Your task to perform on an android device: View the shopping cart on amazon. Search for "rayovac triple a" on amazon, select the first entry, and add it to the cart. Image 0: 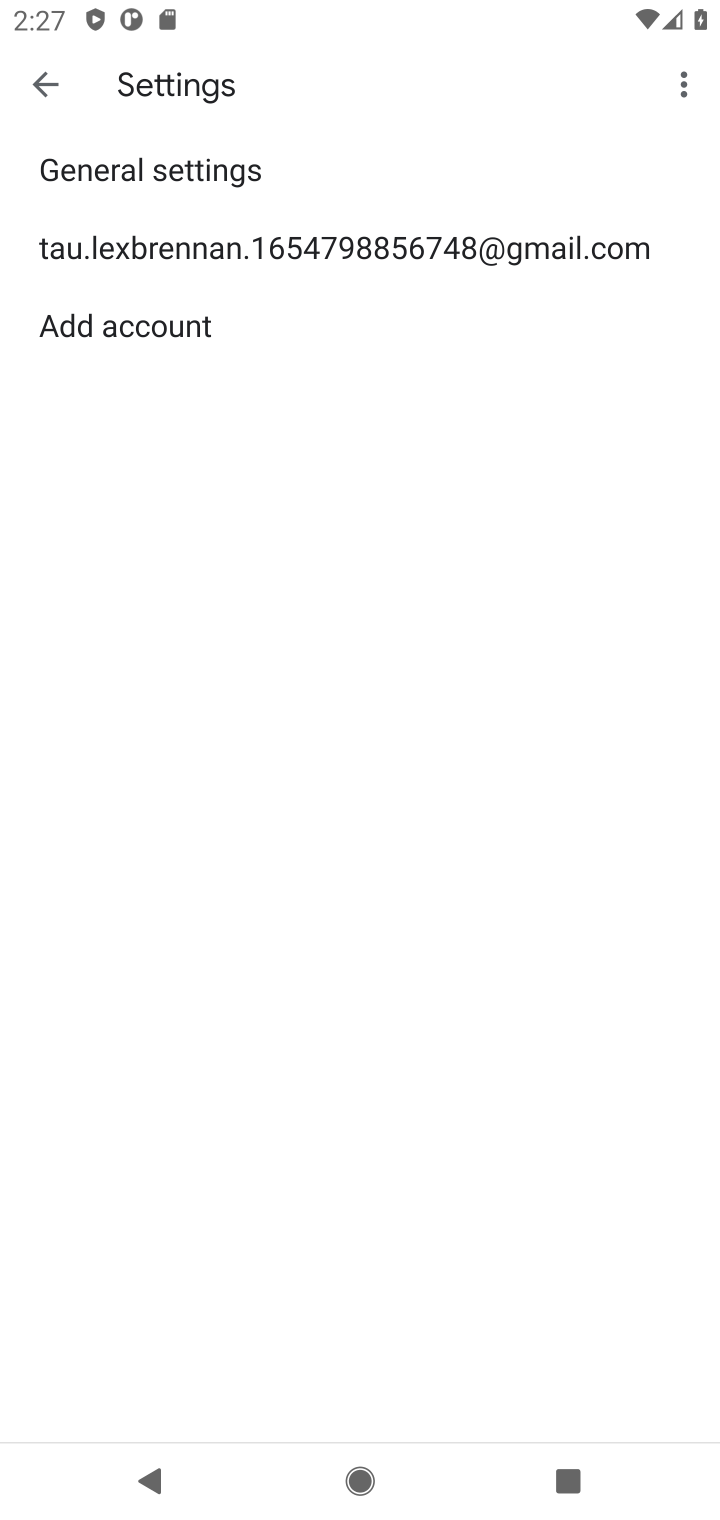
Step 0: press home button
Your task to perform on an android device: View the shopping cart on amazon. Search for "rayovac triple a" on amazon, select the first entry, and add it to the cart. Image 1: 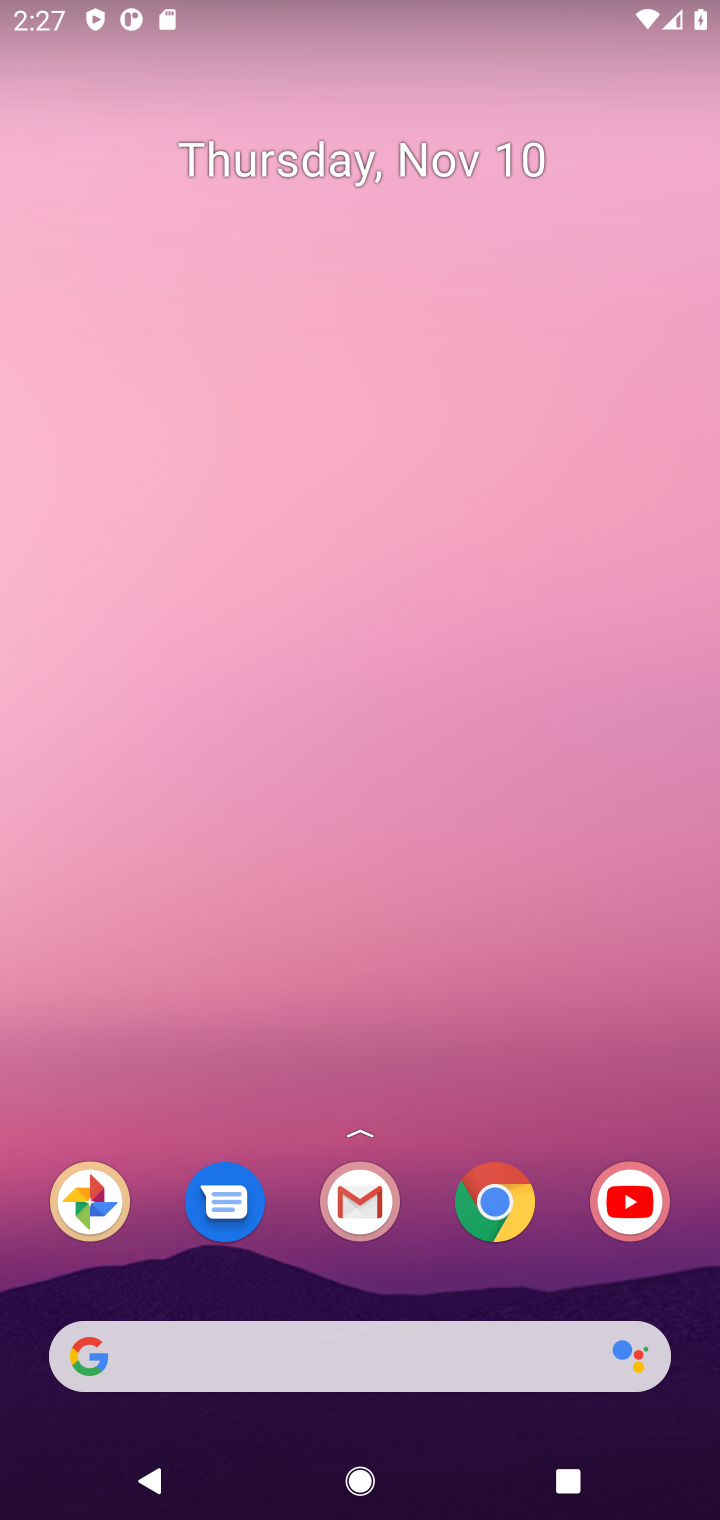
Step 1: click (483, 1186)
Your task to perform on an android device: View the shopping cart on amazon. Search for "rayovac triple a" on amazon, select the first entry, and add it to the cart. Image 2: 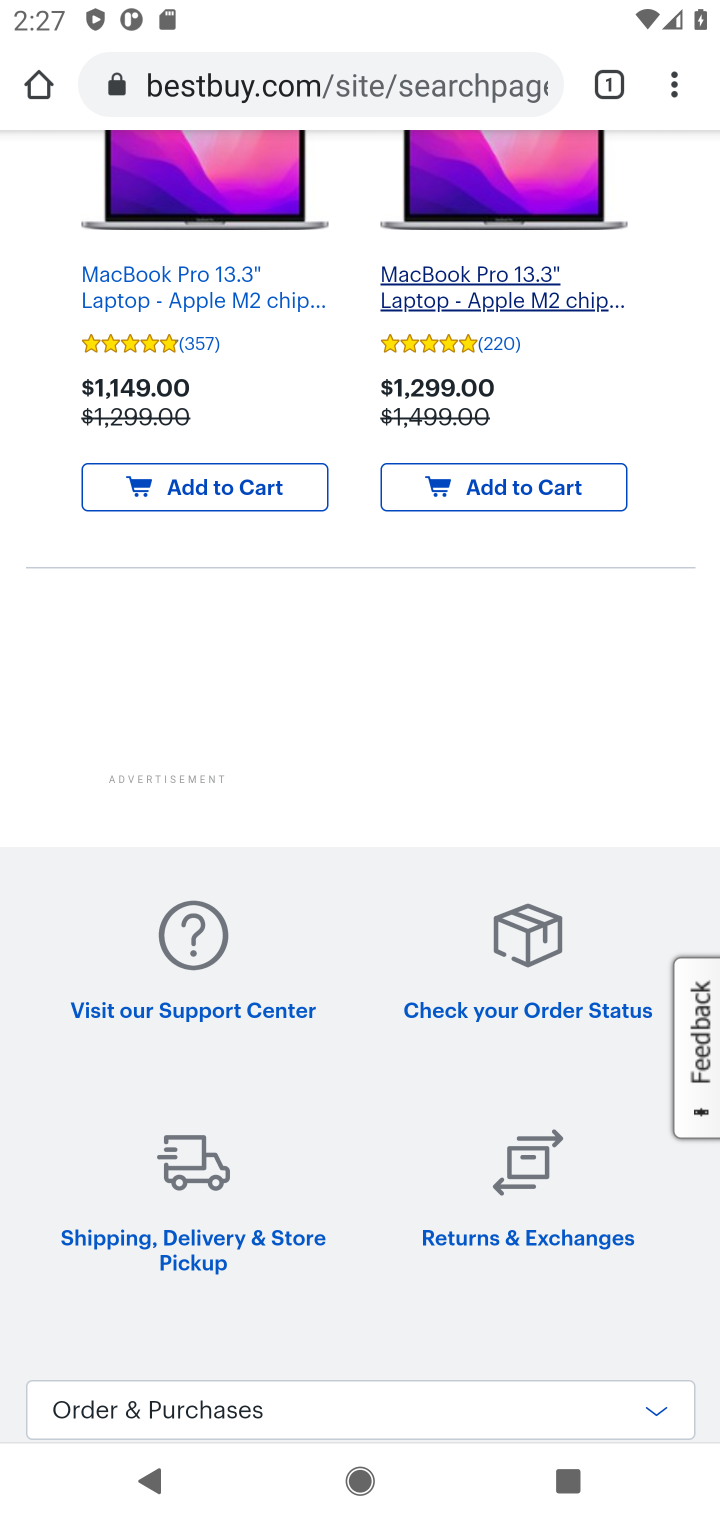
Step 2: click (297, 73)
Your task to perform on an android device: View the shopping cart on amazon. Search for "rayovac triple a" on amazon, select the first entry, and add it to the cart. Image 3: 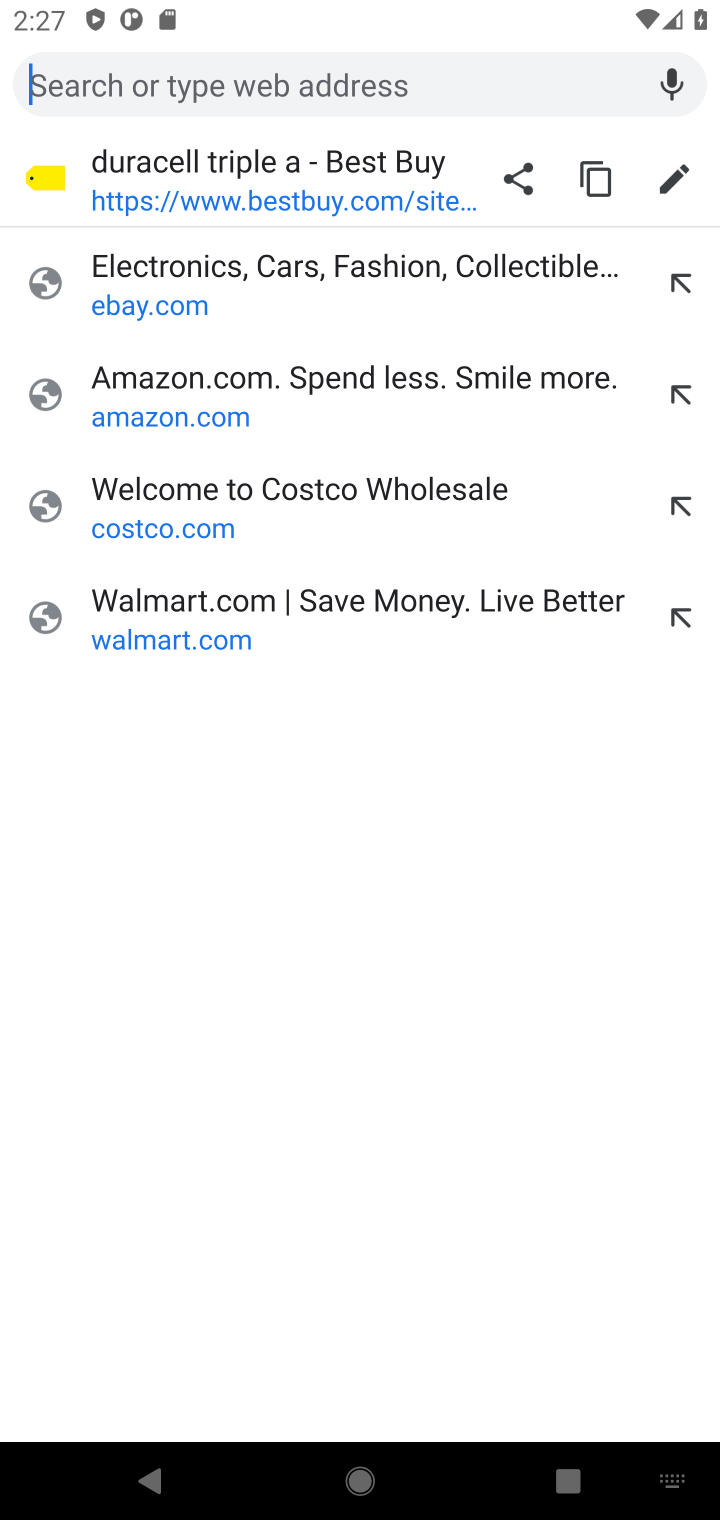
Step 3: click (291, 370)
Your task to perform on an android device: View the shopping cart on amazon. Search for "rayovac triple a" on amazon, select the first entry, and add it to the cart. Image 4: 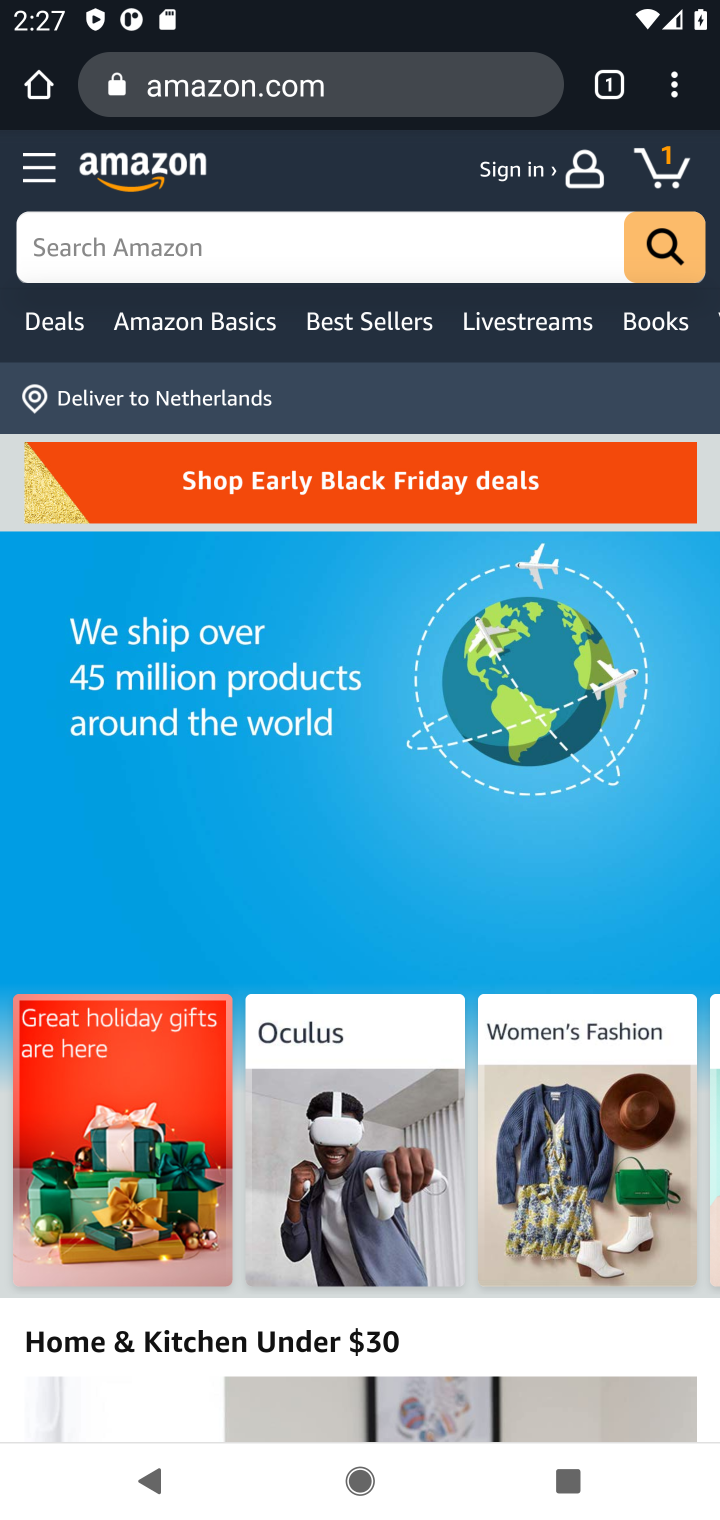
Step 4: click (352, 229)
Your task to perform on an android device: View the shopping cart on amazon. Search for "rayovac triple a" on amazon, select the first entry, and add it to the cart. Image 5: 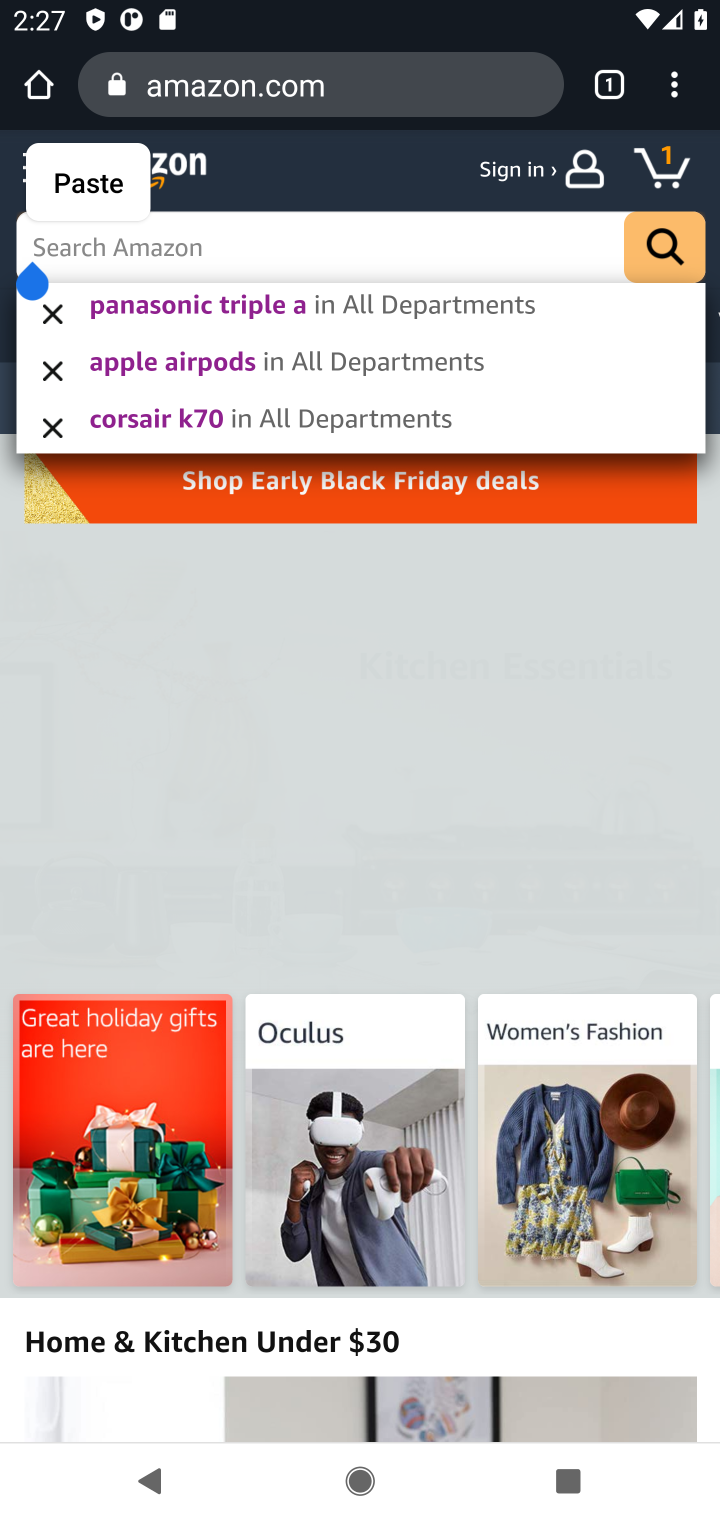
Step 5: press enter
Your task to perform on an android device: View the shopping cart on amazon. Search for "rayovac triple a" on amazon, select the first entry, and add it to the cart. Image 6: 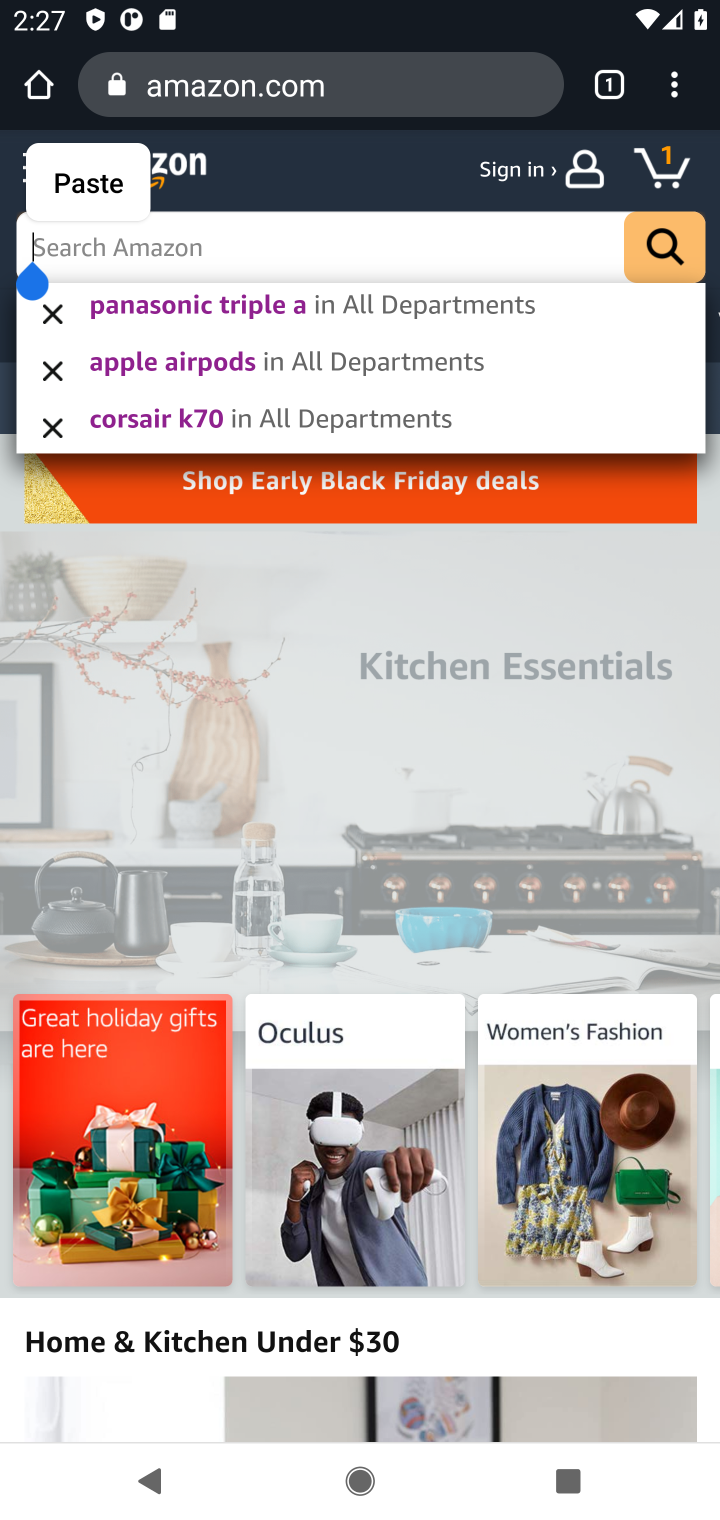
Step 6: type "rayovac triple a"
Your task to perform on an android device: View the shopping cart on amazon. Search for "rayovac triple a" on amazon, select the first entry, and add it to the cart. Image 7: 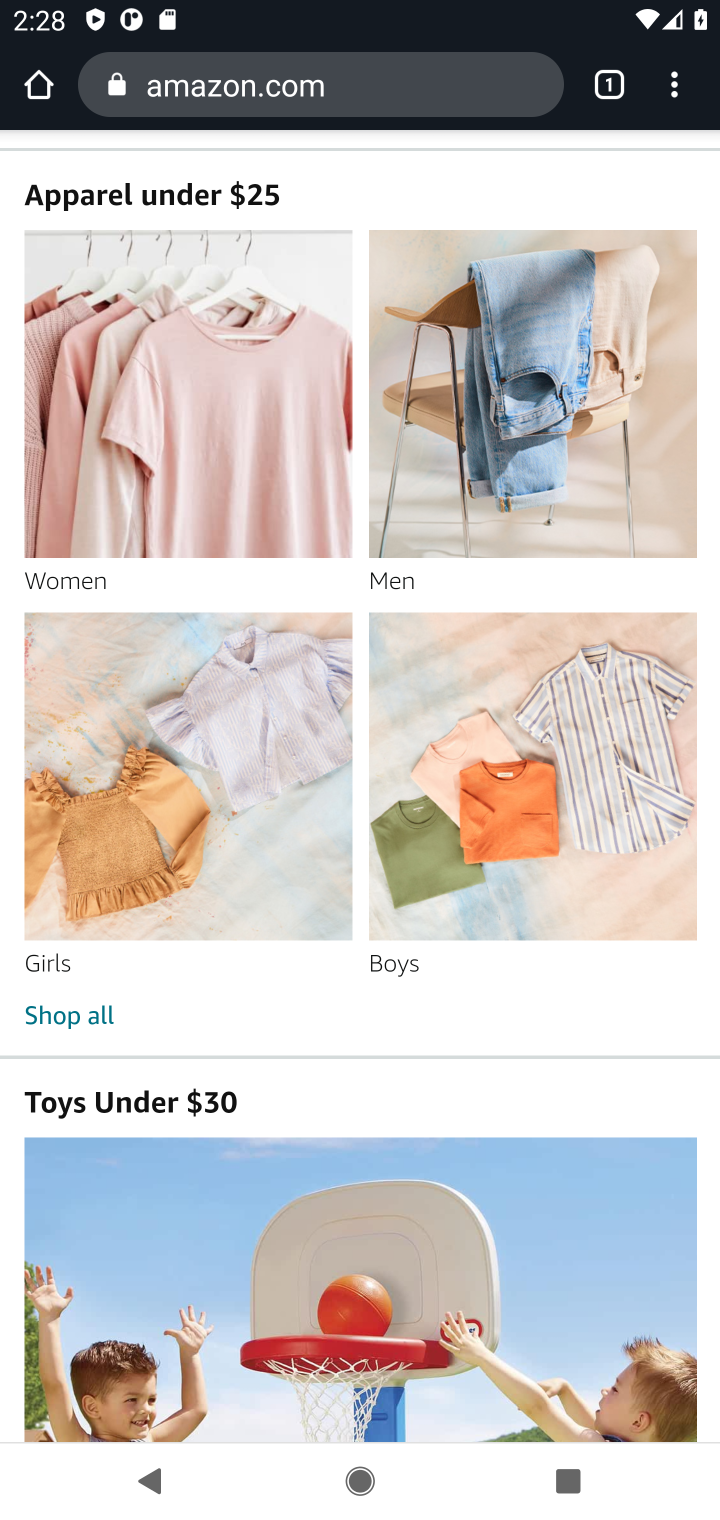
Step 7: press home button
Your task to perform on an android device: View the shopping cart on amazon. Search for "rayovac triple a" on amazon, select the first entry, and add it to the cart. Image 8: 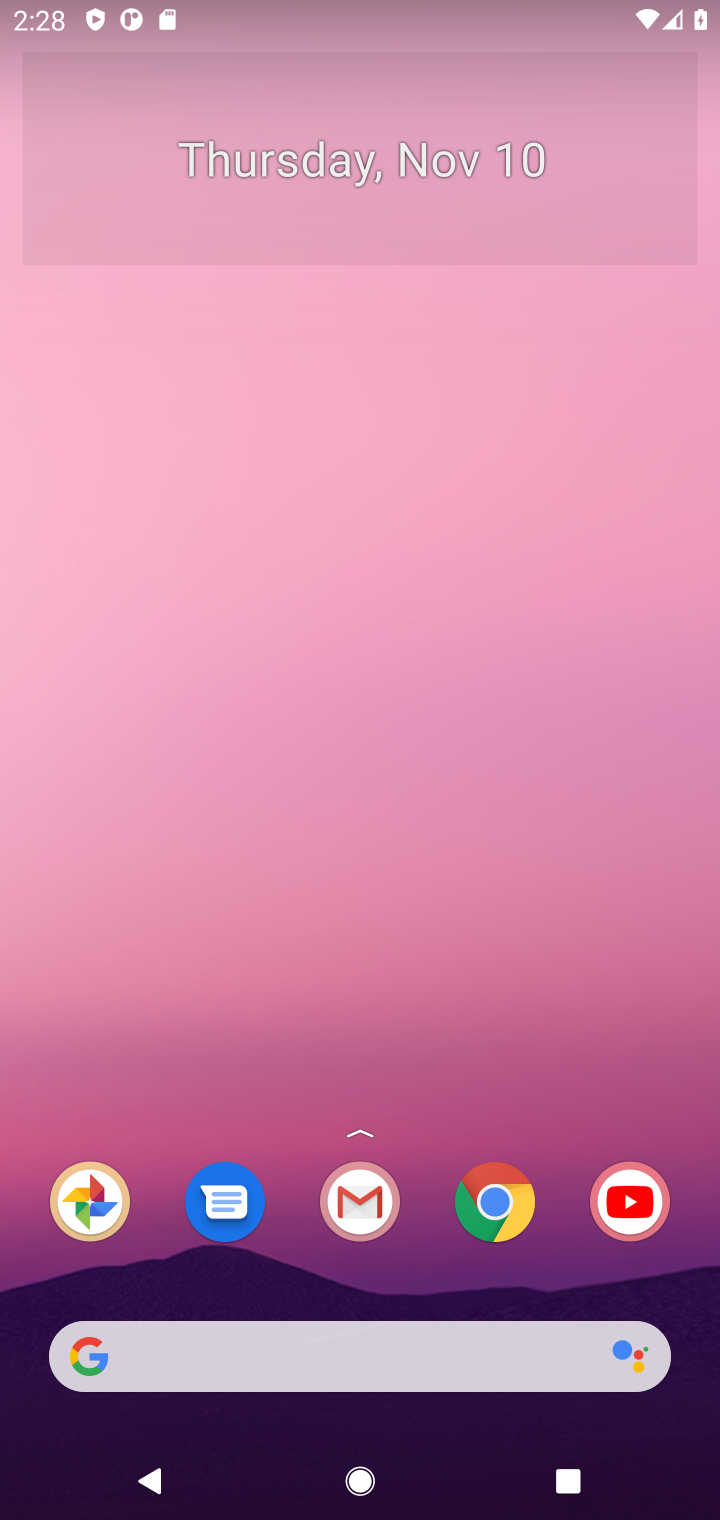
Step 8: click (496, 1220)
Your task to perform on an android device: View the shopping cart on amazon. Search for "rayovac triple a" on amazon, select the first entry, and add it to the cart. Image 9: 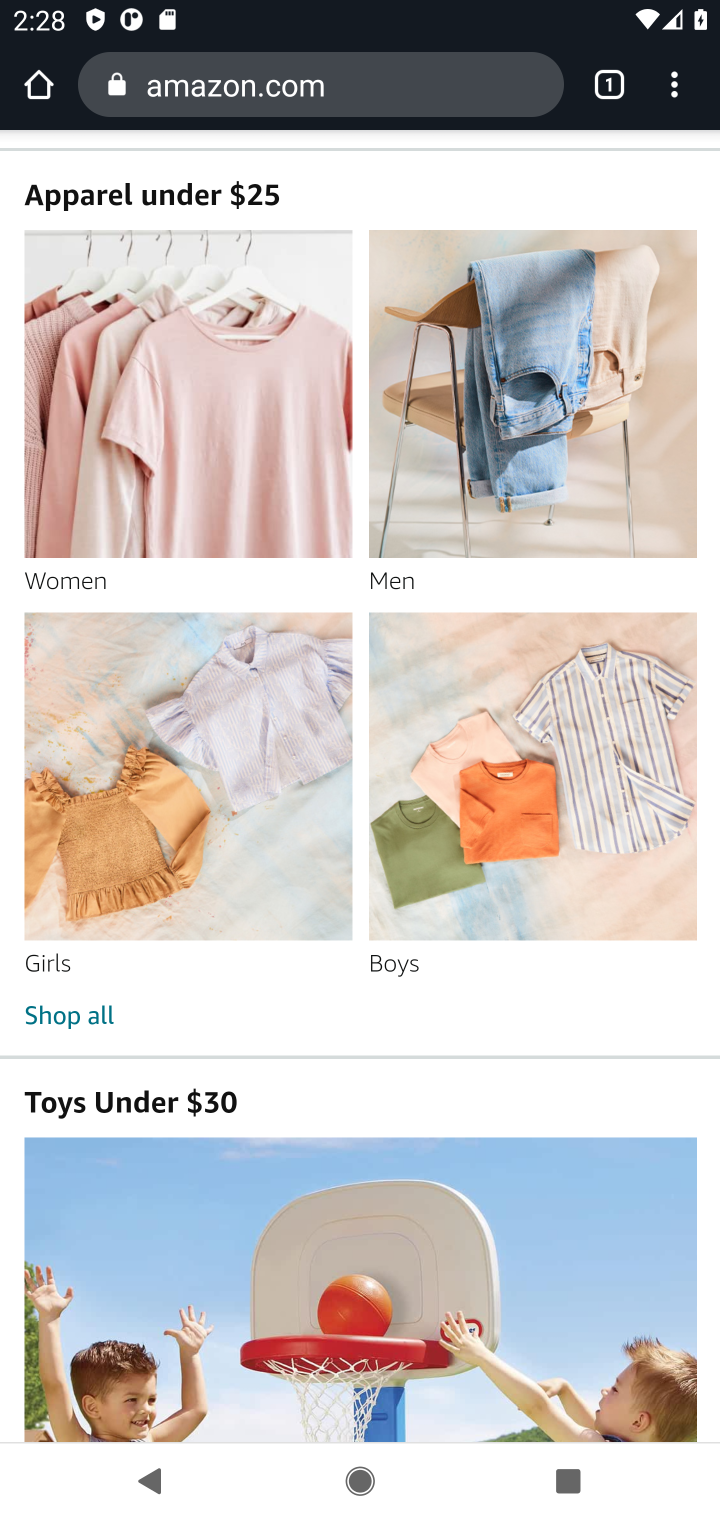
Step 9: click (342, 80)
Your task to perform on an android device: View the shopping cart on amazon. Search for "rayovac triple a" on amazon, select the first entry, and add it to the cart. Image 10: 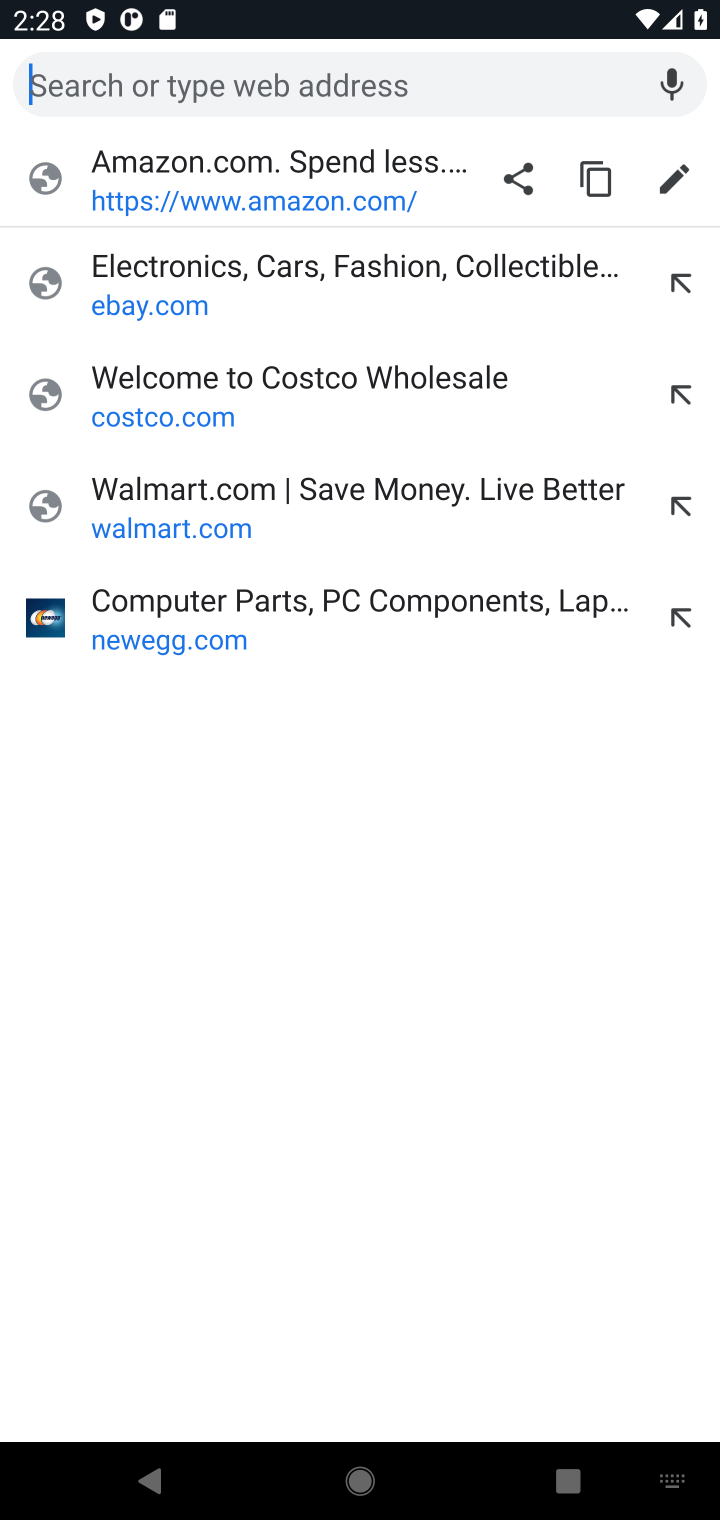
Step 10: press enter
Your task to perform on an android device: View the shopping cart on amazon. Search for "rayovac triple a" on amazon, select the first entry, and add it to the cart. Image 11: 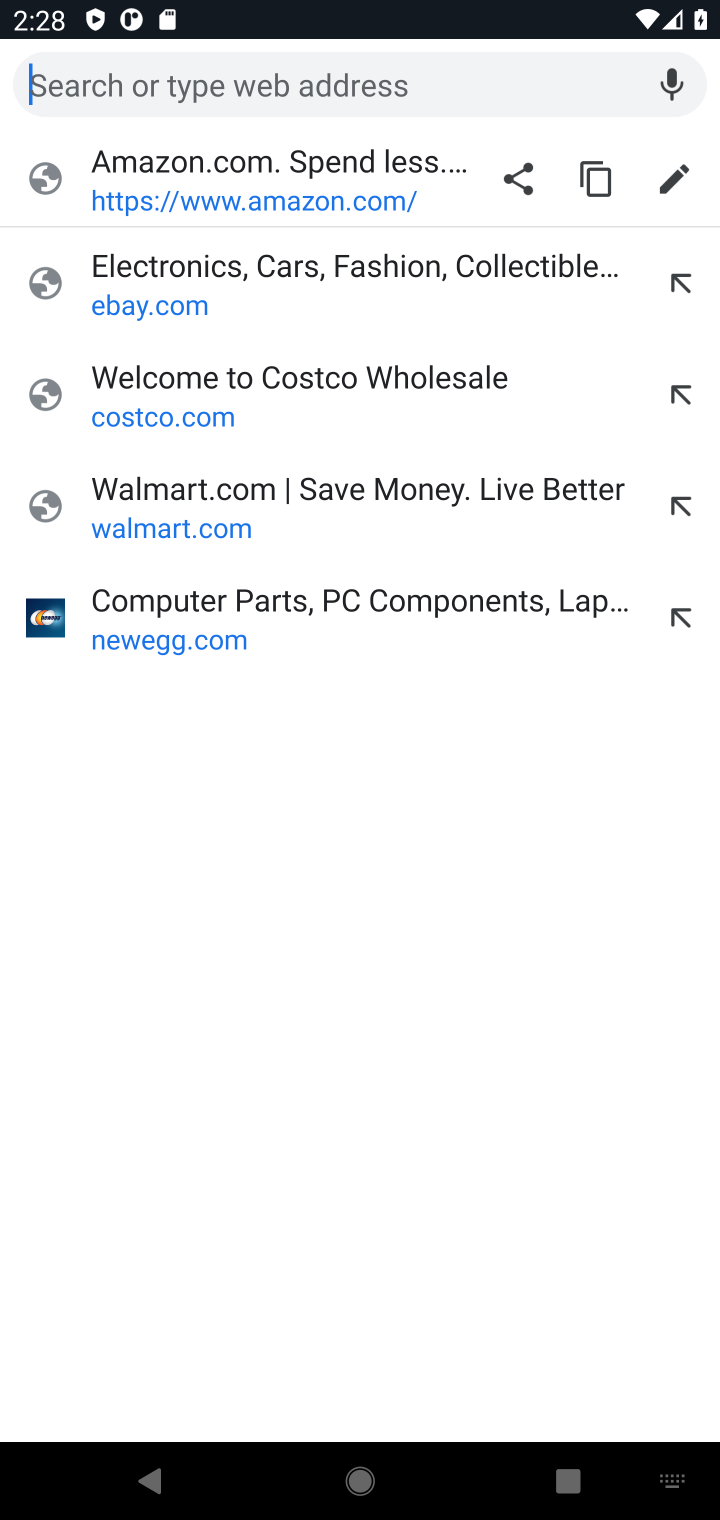
Step 11: type "rayovac triple a"
Your task to perform on an android device: View the shopping cart on amazon. Search for "rayovac triple a" on amazon, select the first entry, and add it to the cart. Image 12: 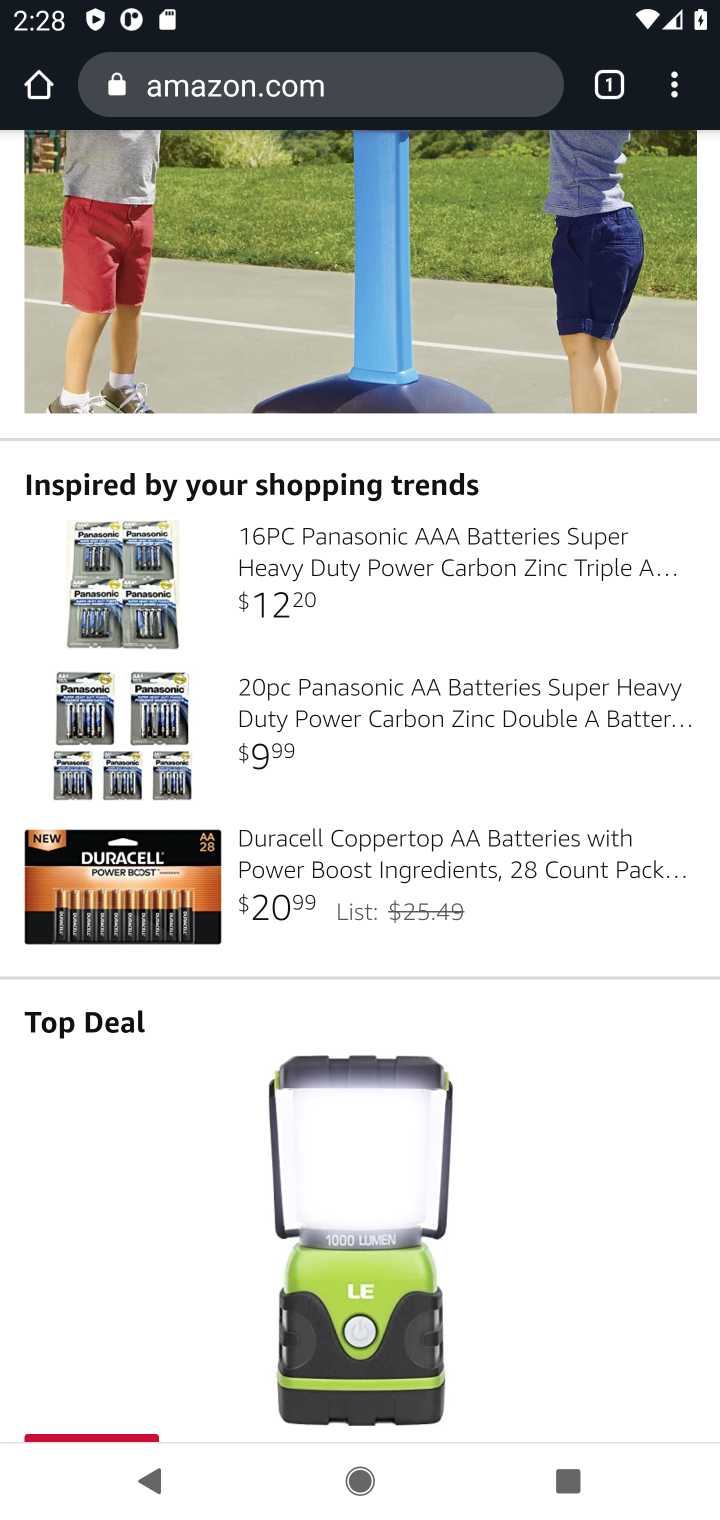
Step 12: drag from (545, 321) to (493, 1015)
Your task to perform on an android device: View the shopping cart on amazon. Search for "rayovac triple a" on amazon, select the first entry, and add it to the cart. Image 13: 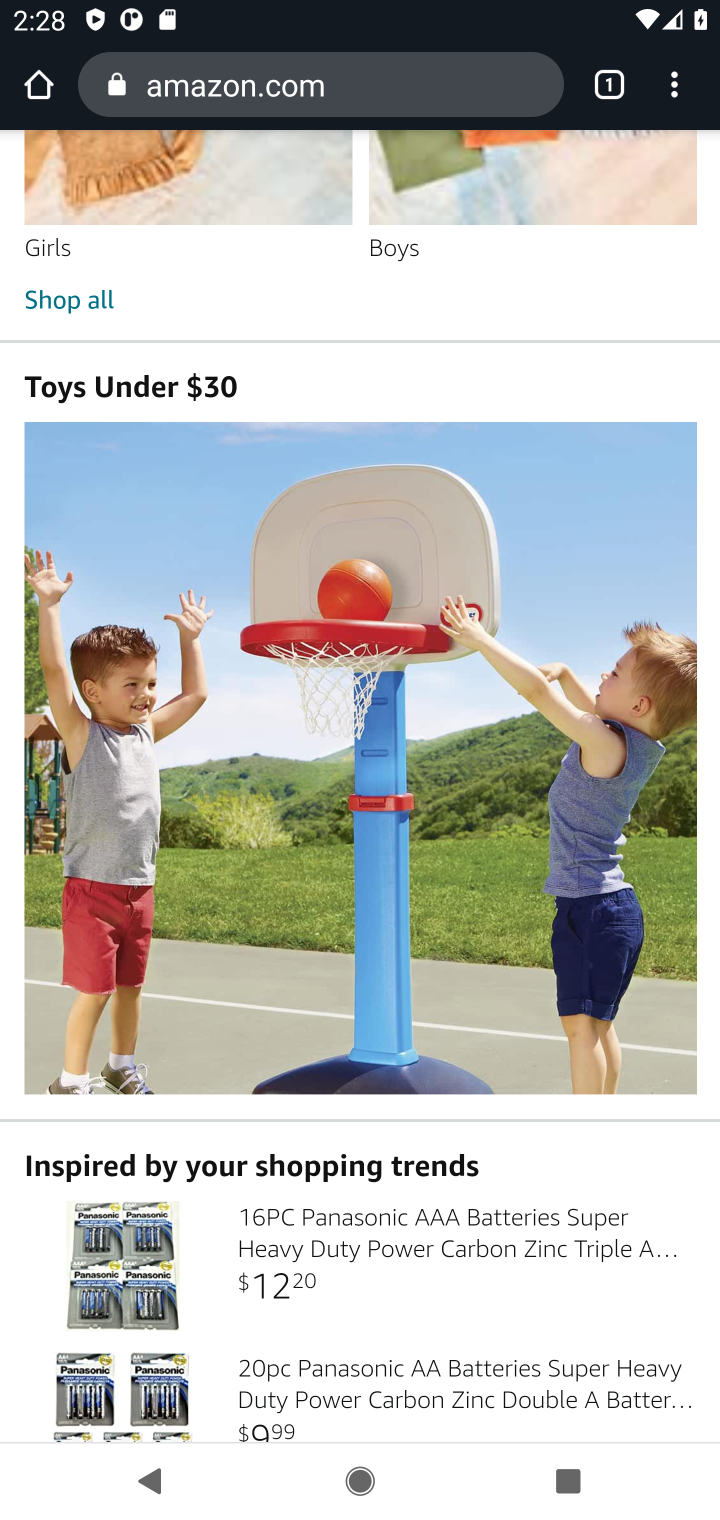
Step 13: drag from (559, 213) to (714, 846)
Your task to perform on an android device: View the shopping cart on amazon. Search for "rayovac triple a" on amazon, select the first entry, and add it to the cart. Image 14: 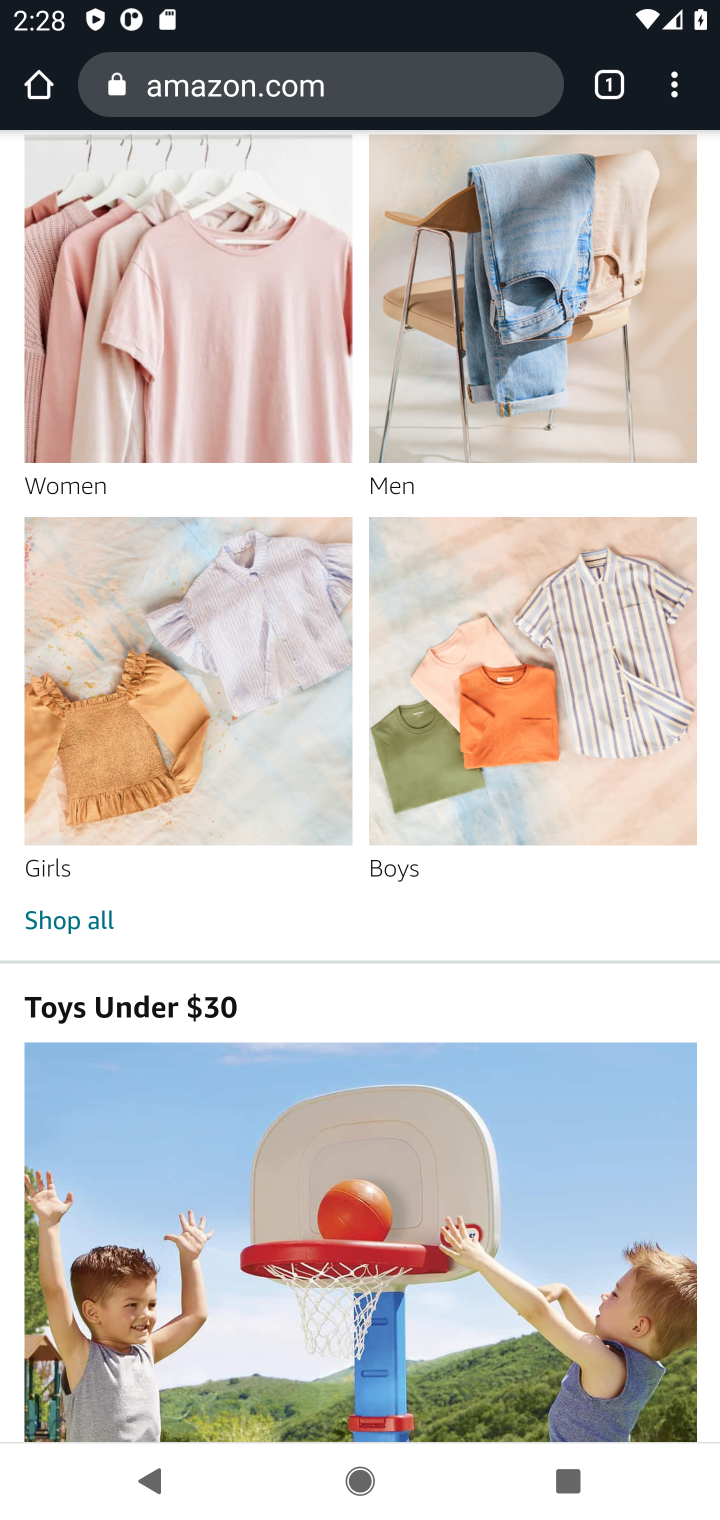
Step 14: drag from (475, 497) to (637, 1136)
Your task to perform on an android device: View the shopping cart on amazon. Search for "rayovac triple a" on amazon, select the first entry, and add it to the cart. Image 15: 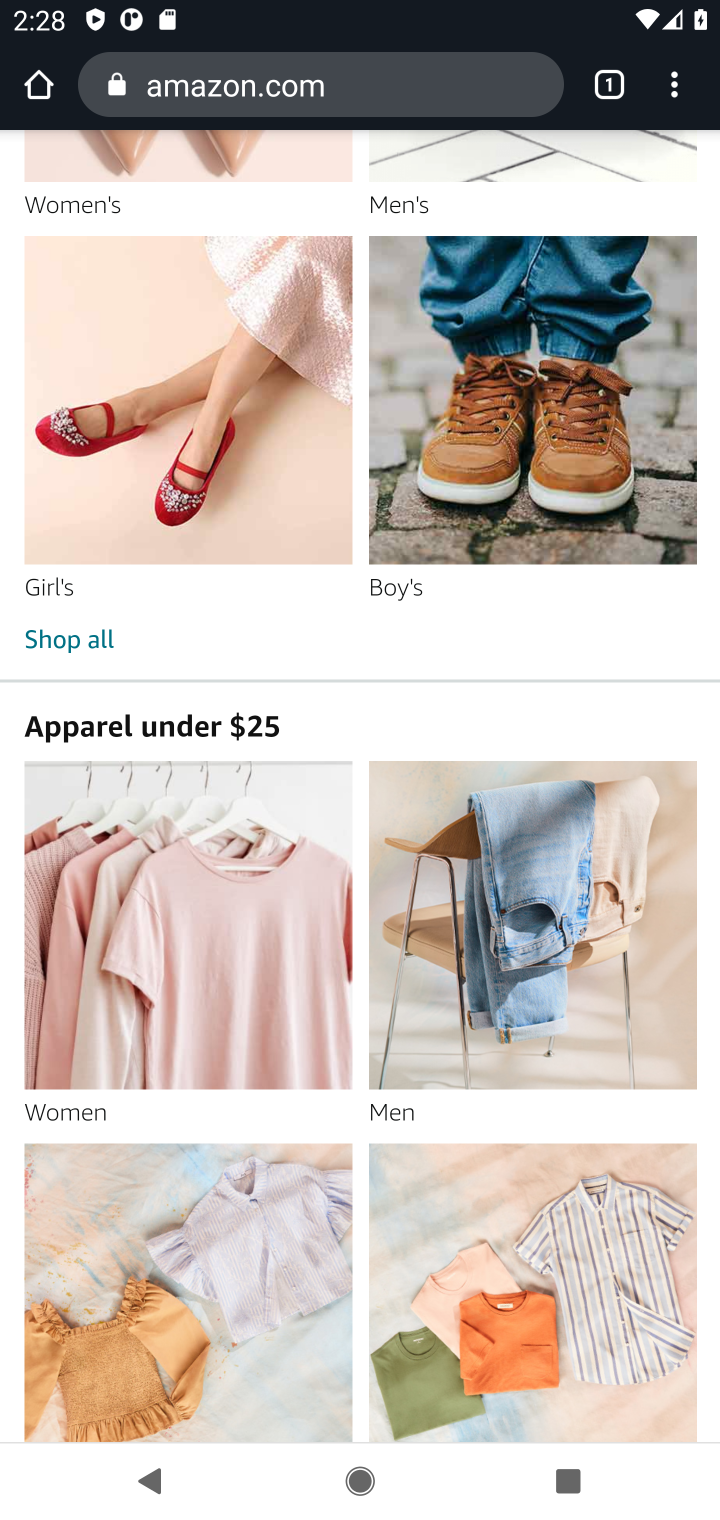
Step 15: drag from (276, 702) to (333, 1293)
Your task to perform on an android device: View the shopping cart on amazon. Search for "rayovac triple a" on amazon, select the first entry, and add it to the cart. Image 16: 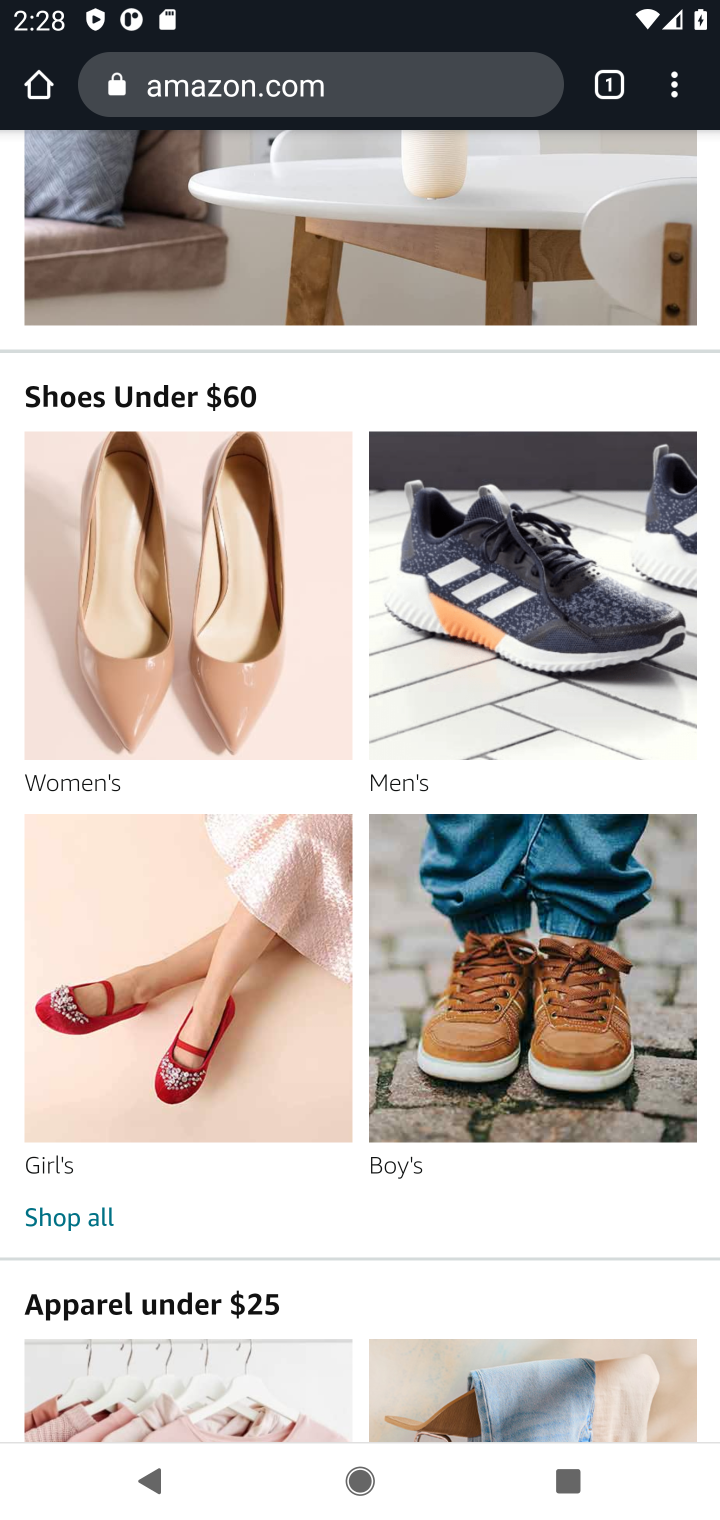
Step 16: drag from (328, 303) to (455, 1097)
Your task to perform on an android device: View the shopping cart on amazon. Search for "rayovac triple a" on amazon, select the first entry, and add it to the cart. Image 17: 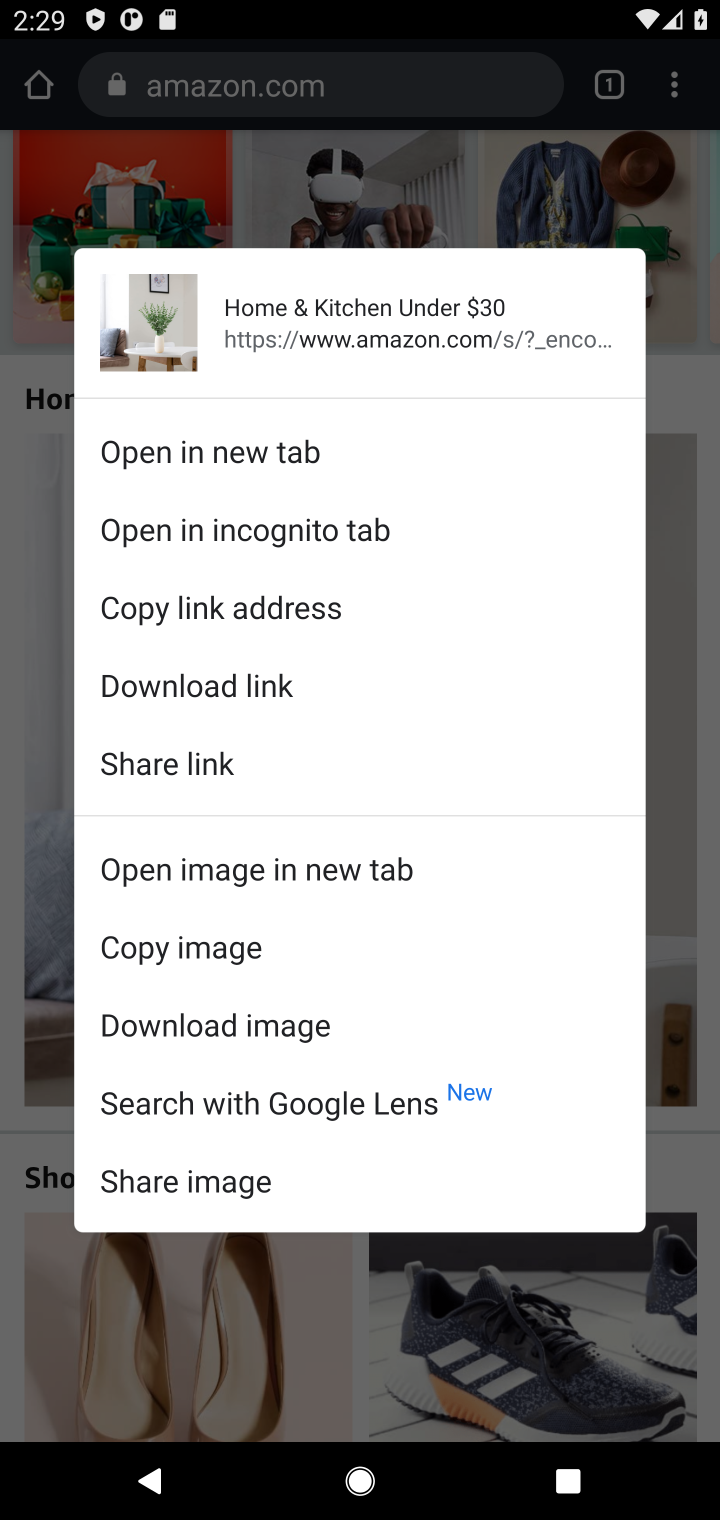
Step 17: click (408, 177)
Your task to perform on an android device: View the shopping cart on amazon. Search for "rayovac triple a" on amazon, select the first entry, and add it to the cart. Image 18: 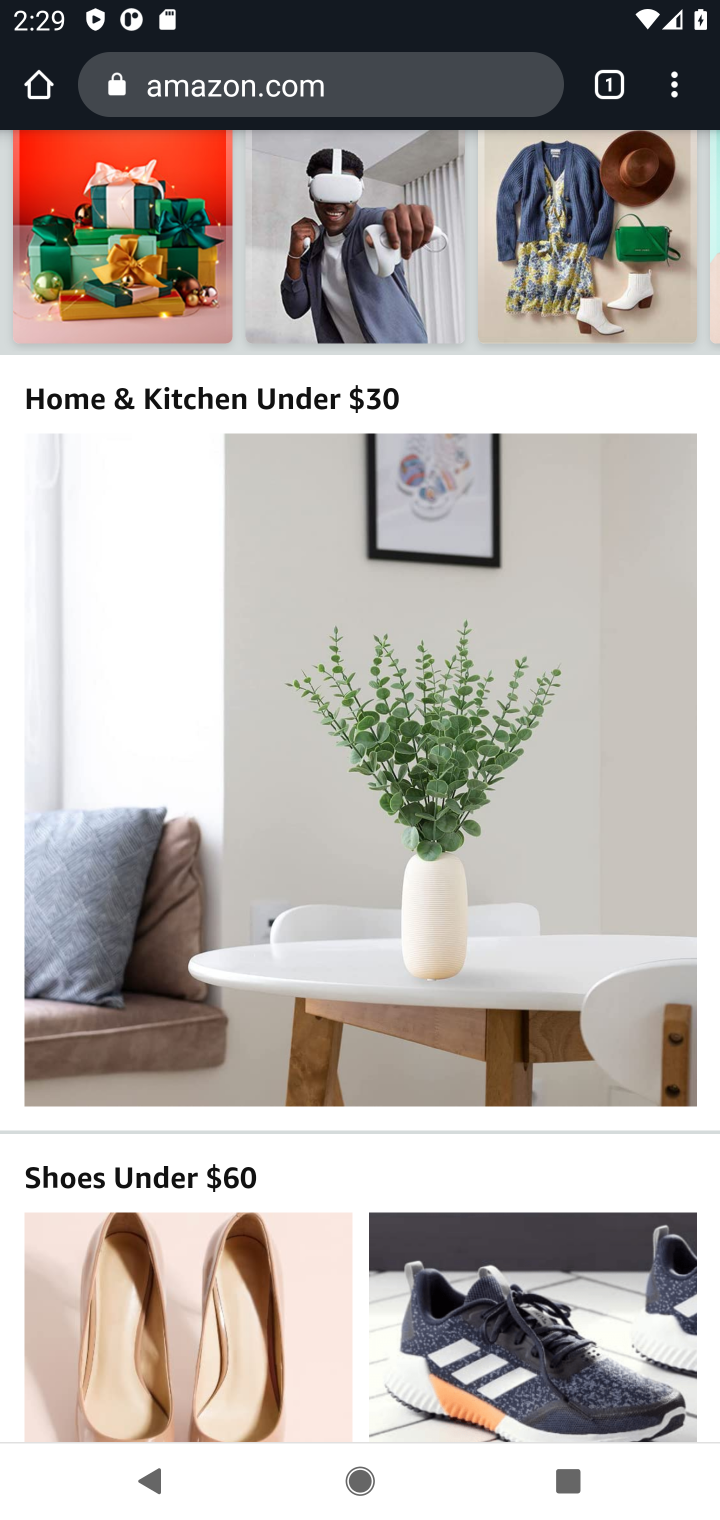
Step 18: drag from (536, 729) to (552, 982)
Your task to perform on an android device: View the shopping cart on amazon. Search for "rayovac triple a" on amazon, select the first entry, and add it to the cart. Image 19: 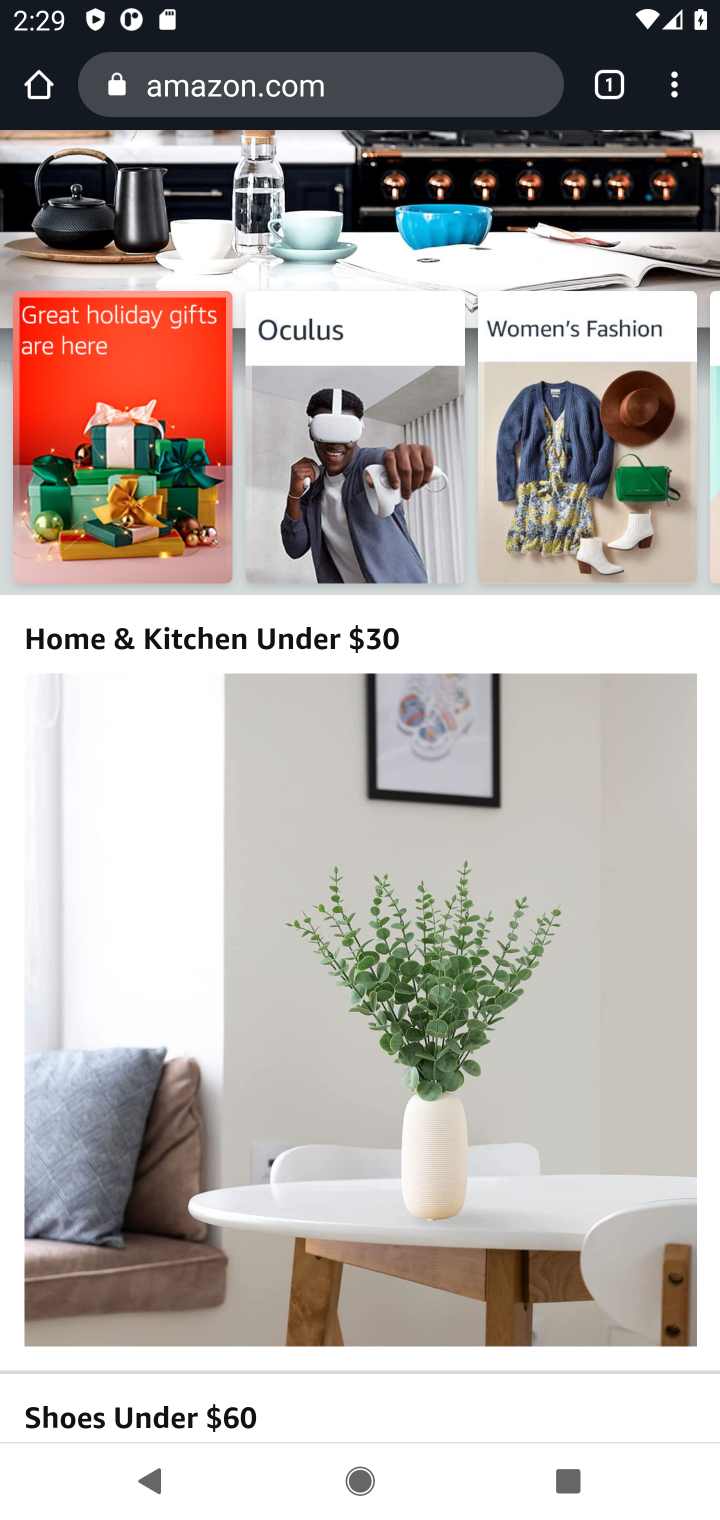
Step 19: click (473, 923)
Your task to perform on an android device: View the shopping cart on amazon. Search for "rayovac triple a" on amazon, select the first entry, and add it to the cart. Image 20: 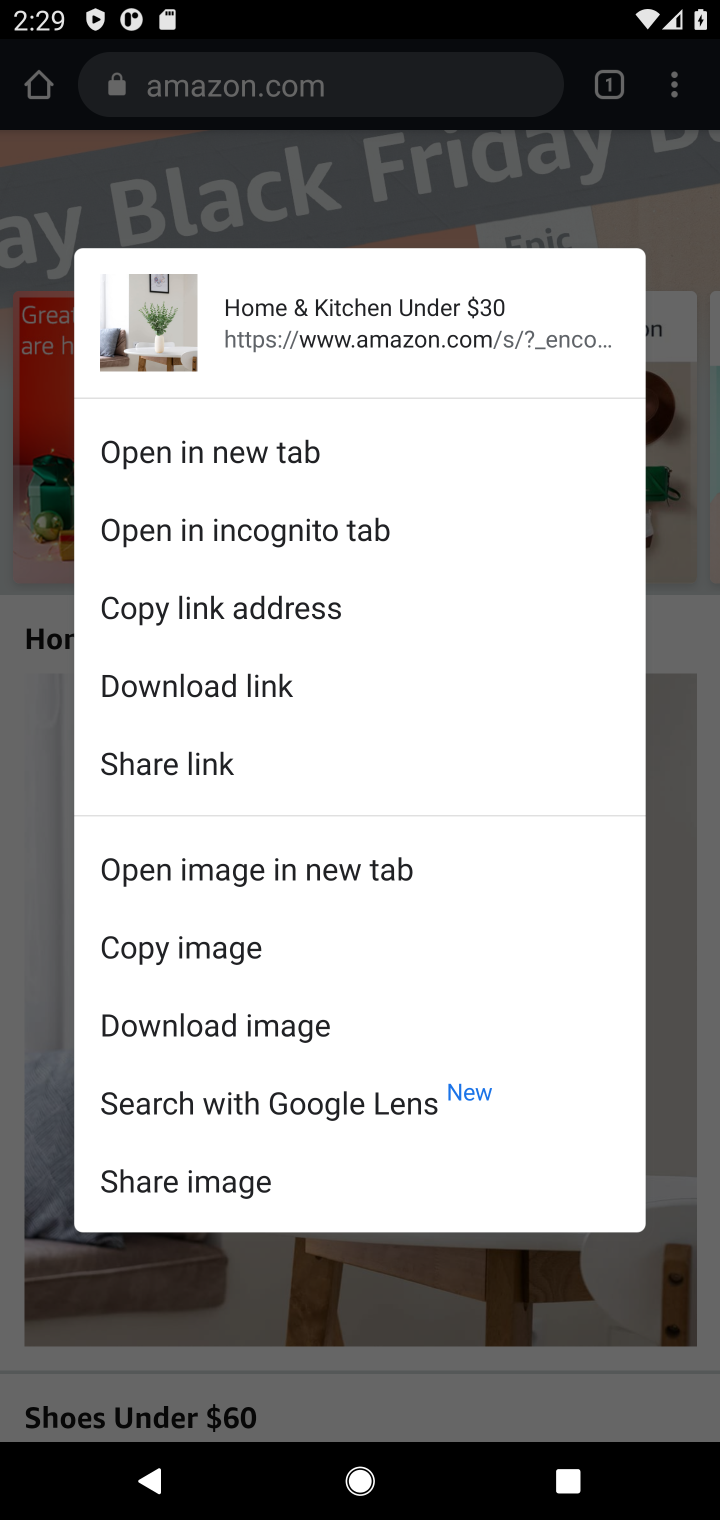
Step 20: click (691, 438)
Your task to perform on an android device: View the shopping cart on amazon. Search for "rayovac triple a" on amazon, select the first entry, and add it to the cart. Image 21: 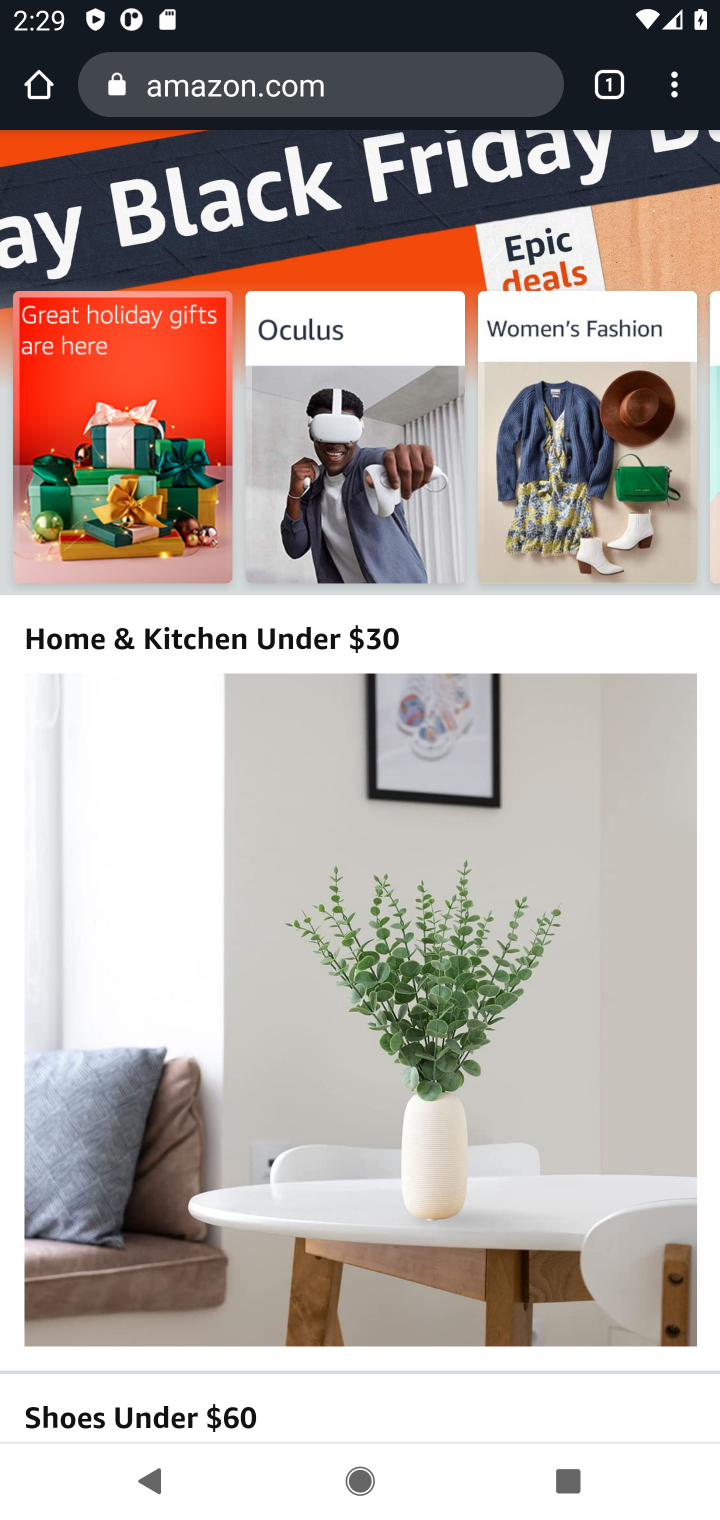
Step 21: drag from (523, 446) to (598, 949)
Your task to perform on an android device: View the shopping cart on amazon. Search for "rayovac triple a" on amazon, select the first entry, and add it to the cart. Image 22: 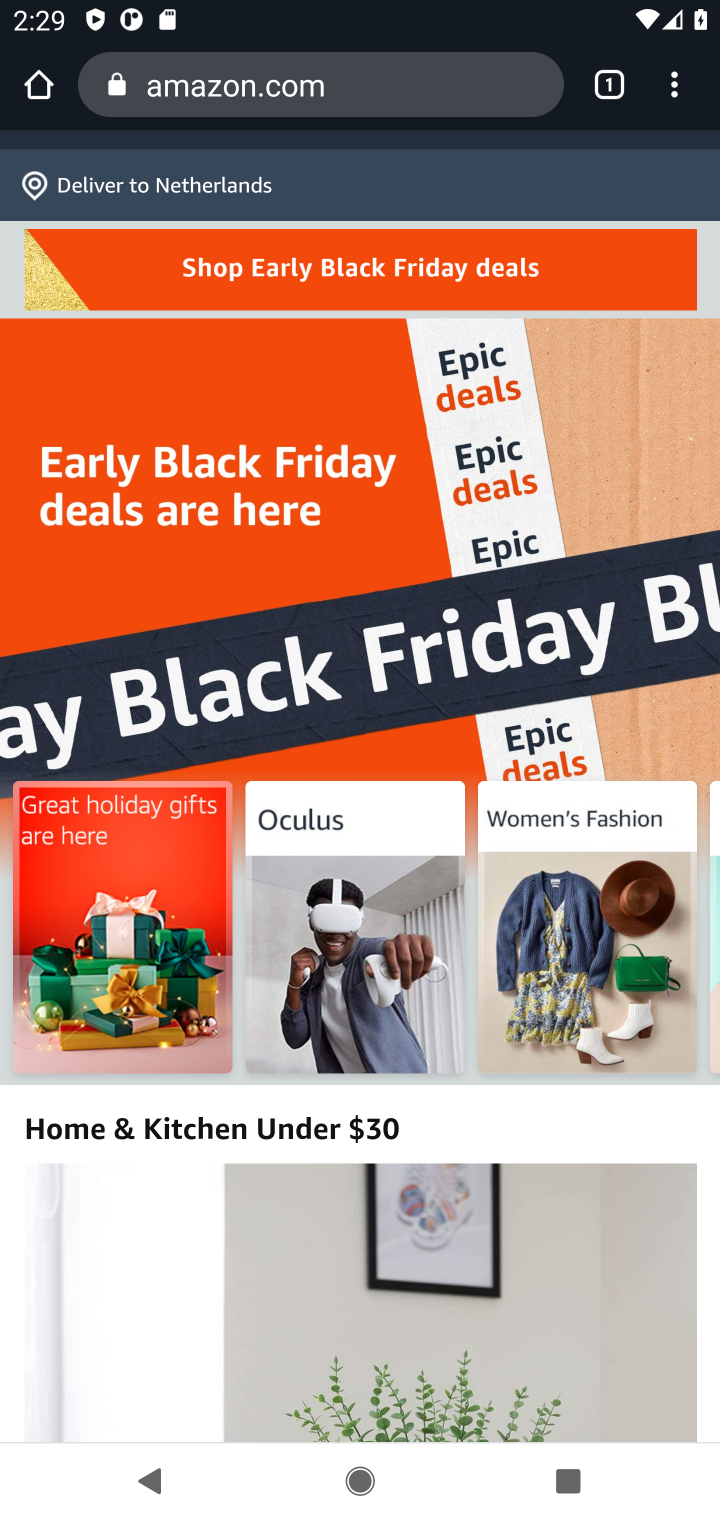
Step 22: drag from (494, 477) to (523, 957)
Your task to perform on an android device: View the shopping cart on amazon. Search for "rayovac triple a" on amazon, select the first entry, and add it to the cart. Image 23: 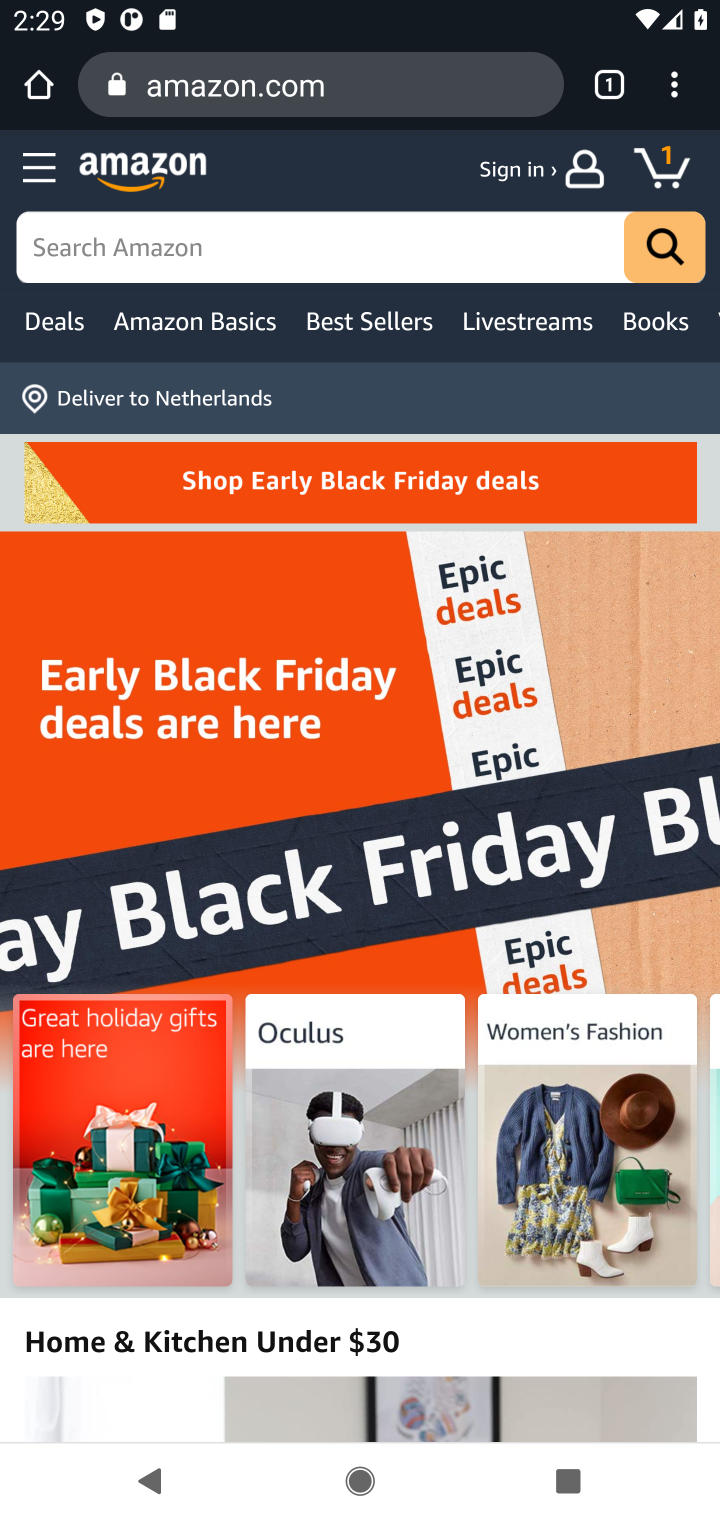
Step 23: click (389, 259)
Your task to perform on an android device: View the shopping cart on amazon. Search for "rayovac triple a" on amazon, select the first entry, and add it to the cart. Image 24: 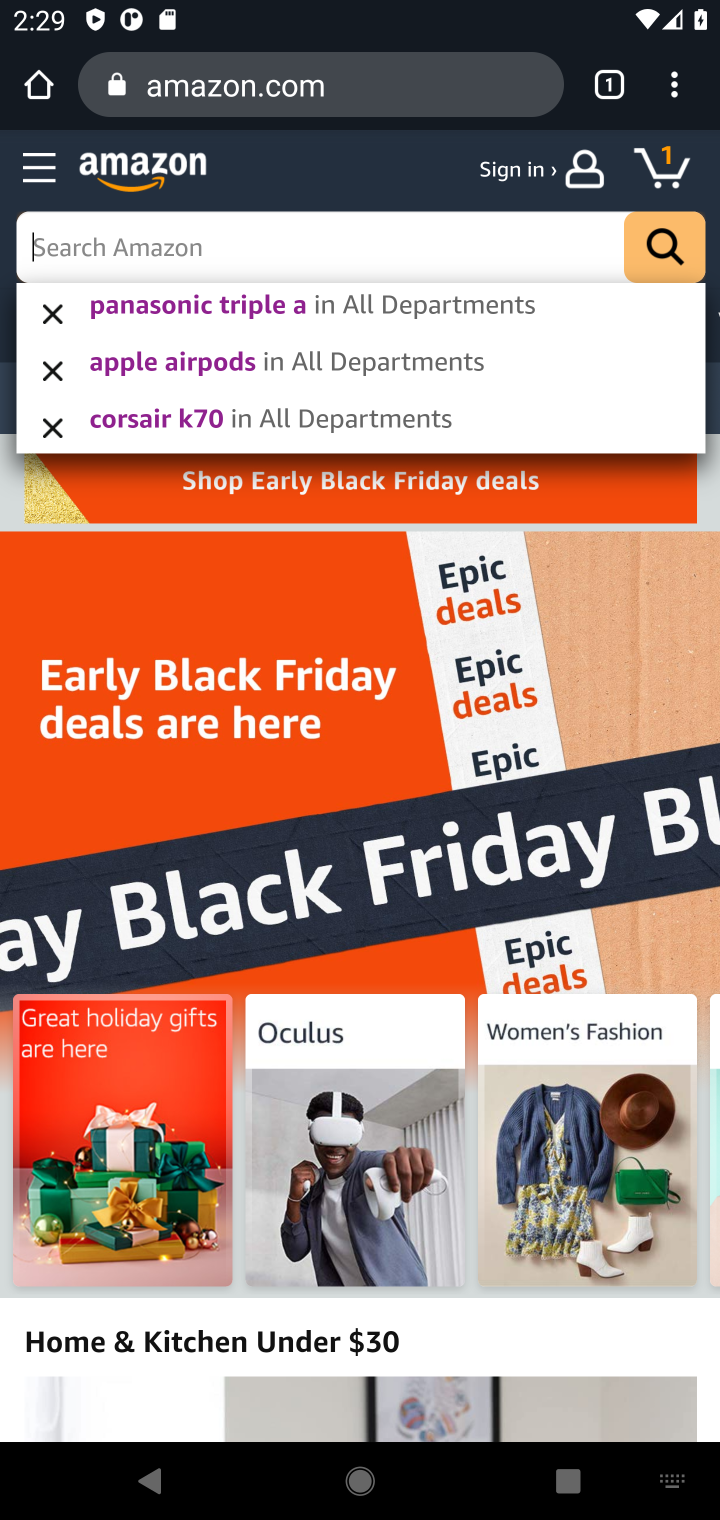
Step 24: press enter
Your task to perform on an android device: View the shopping cart on amazon. Search for "rayovac triple a" on amazon, select the first entry, and add it to the cart. Image 25: 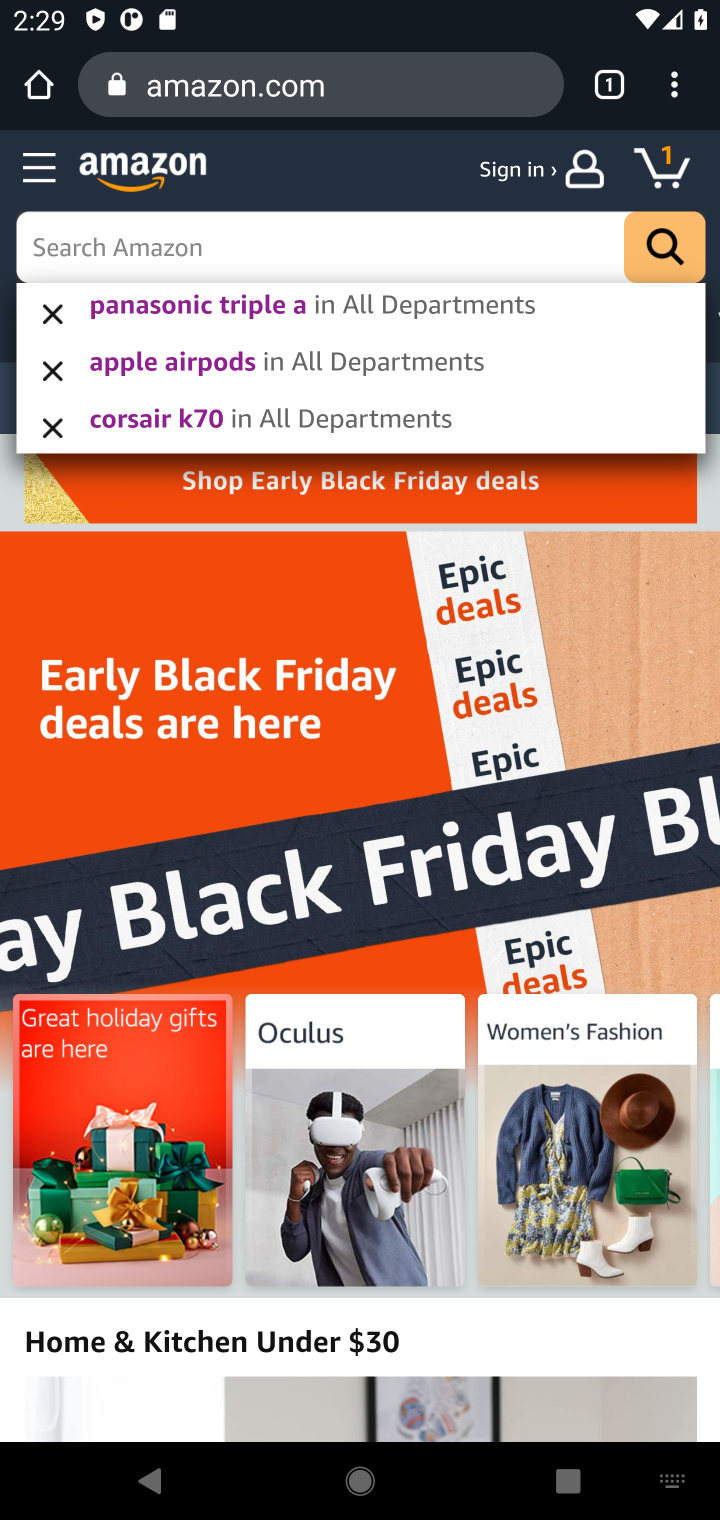
Step 25: type "rayovac triple a"
Your task to perform on an android device: View the shopping cart on amazon. Search for "rayovac triple a" on amazon, select the first entry, and add it to the cart. Image 26: 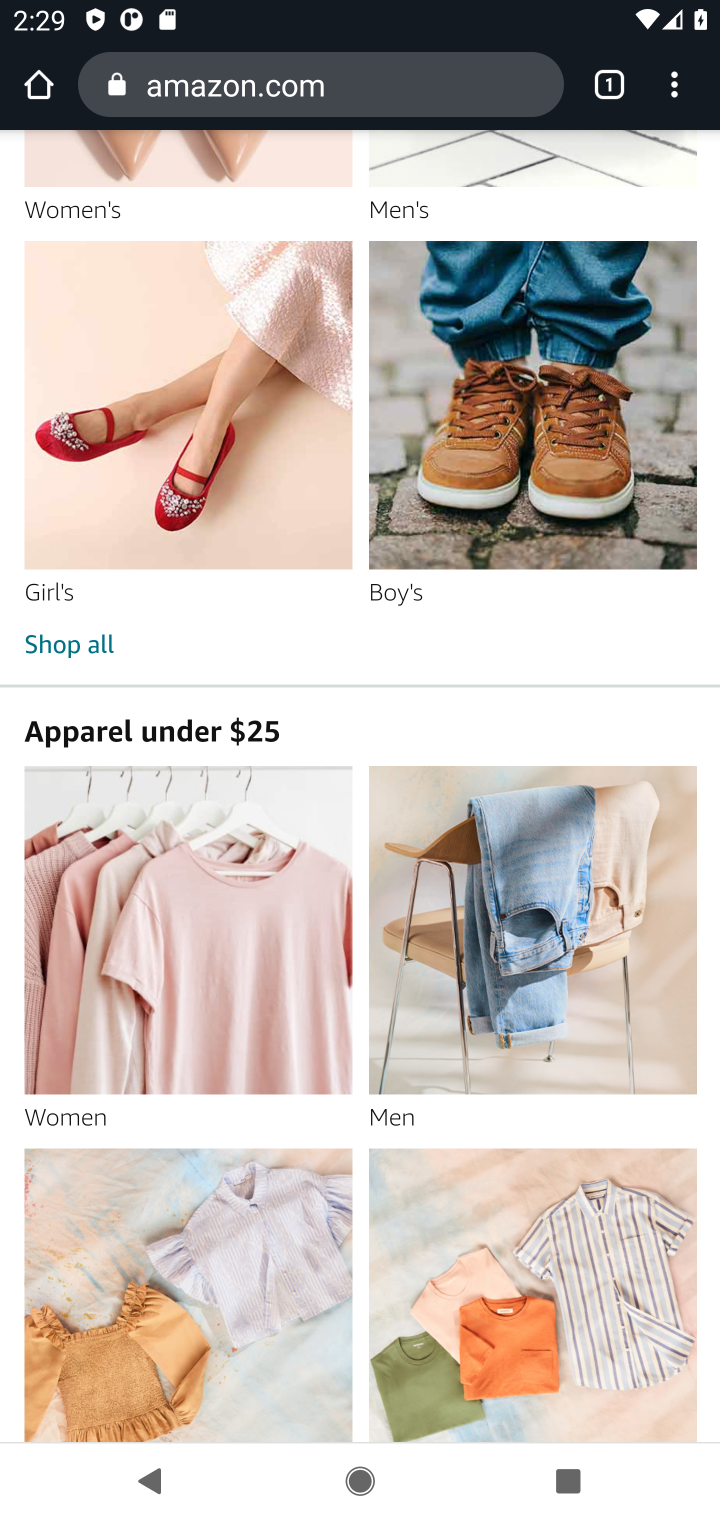
Step 26: click (45, 80)
Your task to perform on an android device: View the shopping cart on amazon. Search for "rayovac triple a" on amazon, select the first entry, and add it to the cart. Image 27: 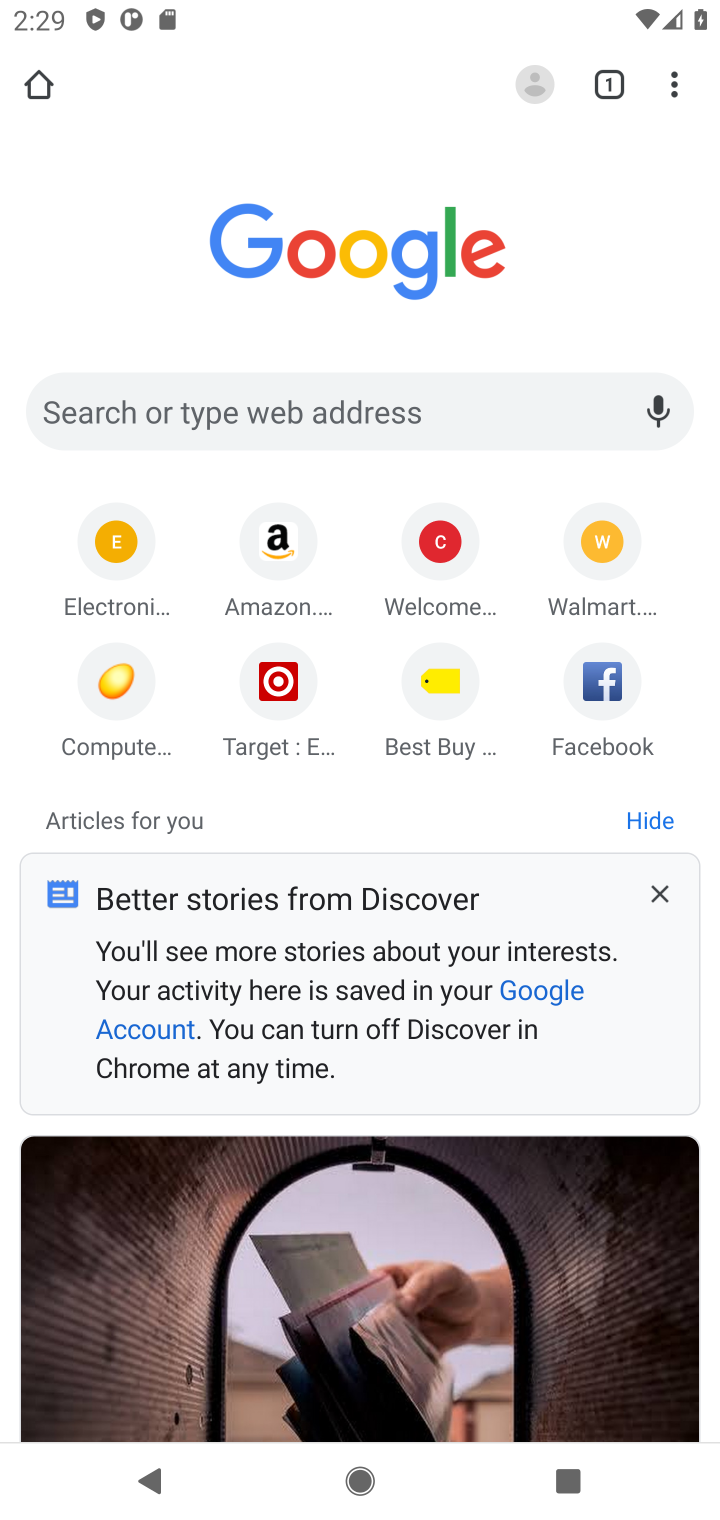
Step 27: click (269, 543)
Your task to perform on an android device: View the shopping cart on amazon. Search for "rayovac triple a" on amazon, select the first entry, and add it to the cart. Image 28: 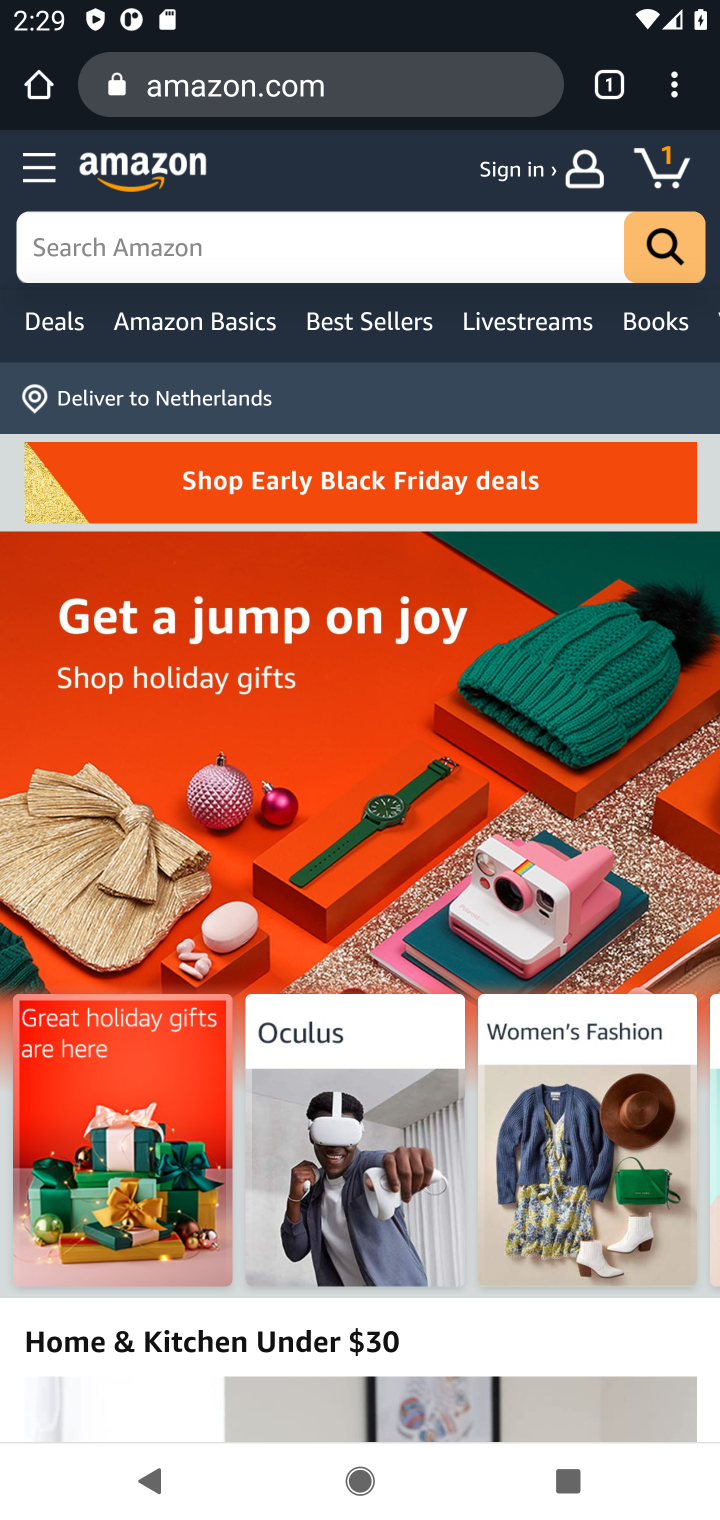
Step 28: click (482, 257)
Your task to perform on an android device: View the shopping cart on amazon. Search for "rayovac triple a" on amazon, select the first entry, and add it to the cart. Image 29: 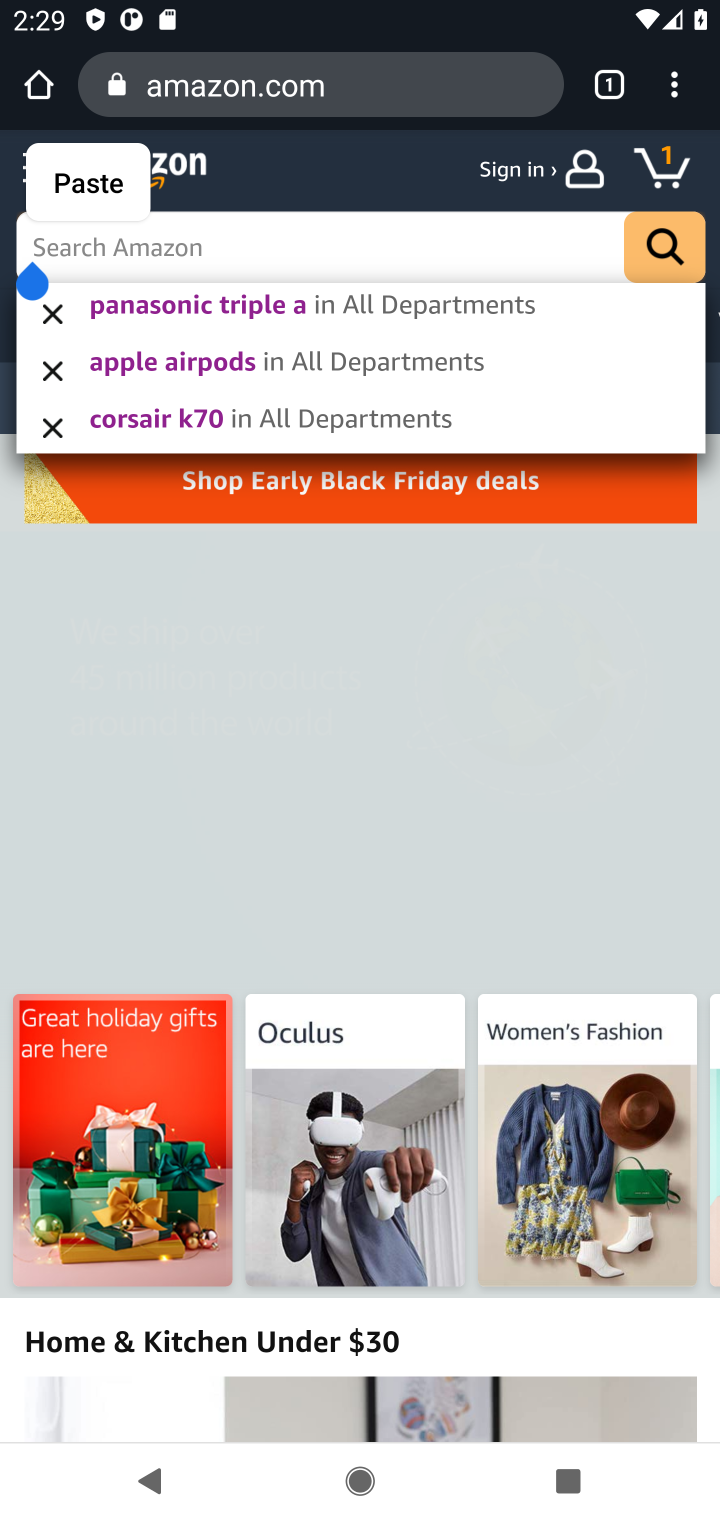
Step 29: type "rayovac triple a"
Your task to perform on an android device: View the shopping cart on amazon. Search for "rayovac triple a" on amazon, select the first entry, and add it to the cart. Image 30: 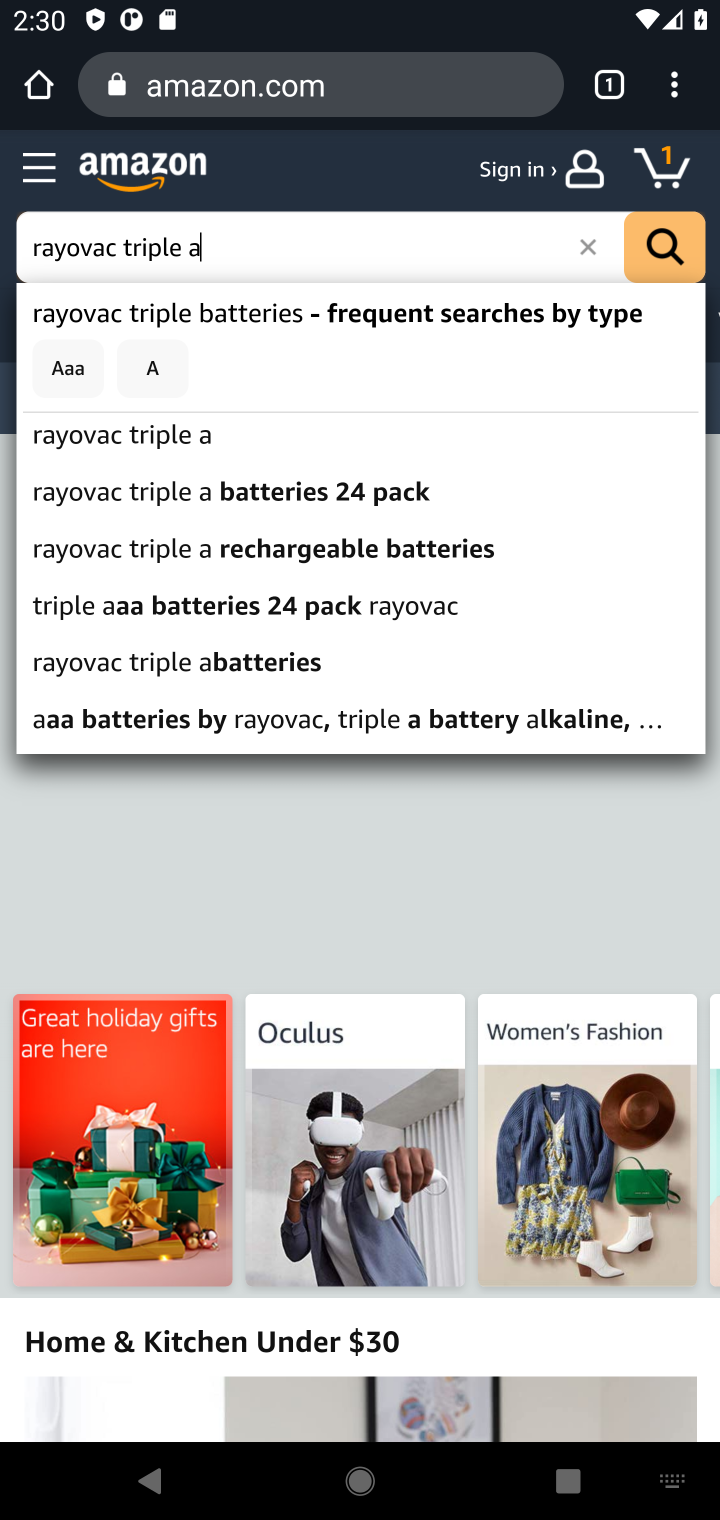
Step 30: press enter
Your task to perform on an android device: View the shopping cart on amazon. Search for "rayovac triple a" on amazon, select the first entry, and add it to the cart. Image 31: 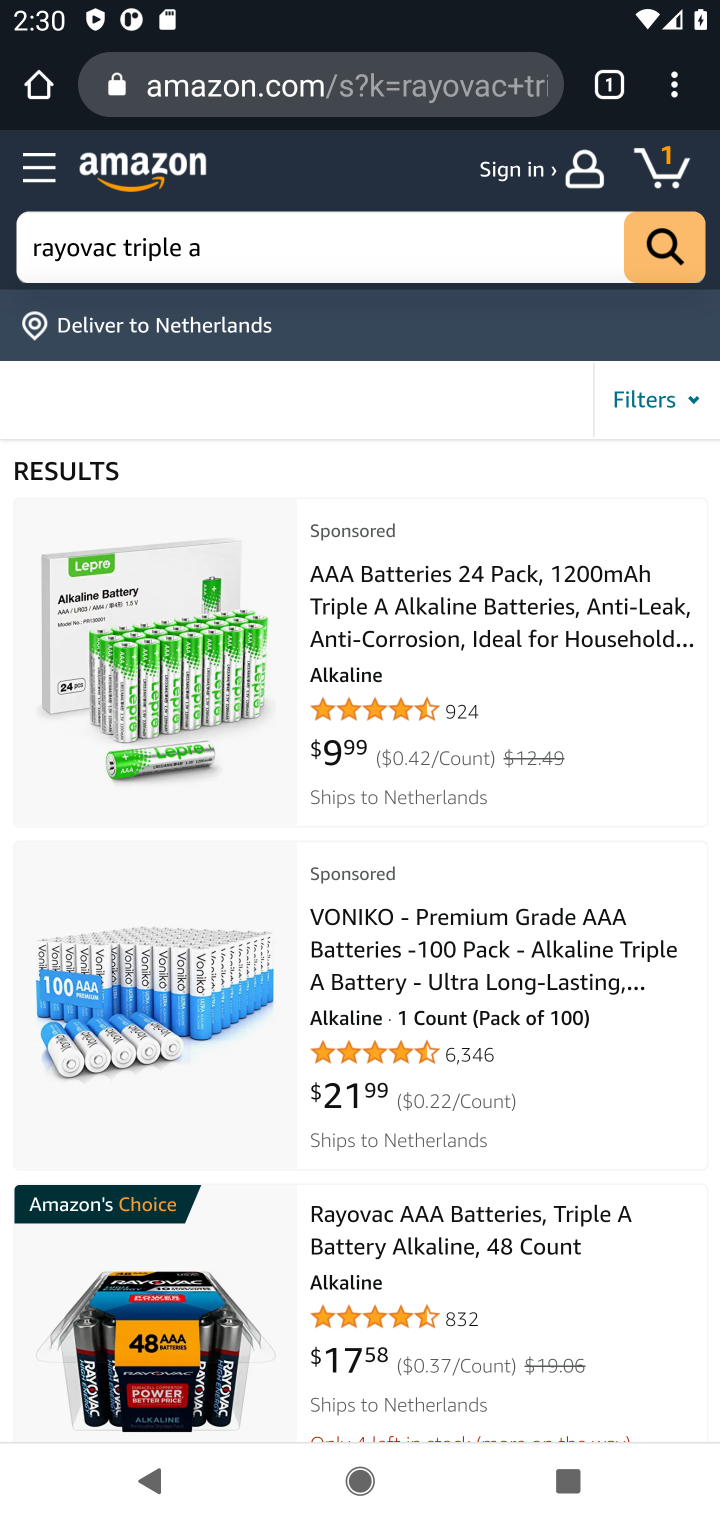
Step 31: click (140, 1324)
Your task to perform on an android device: View the shopping cart on amazon. Search for "rayovac triple a" on amazon, select the first entry, and add it to the cart. Image 32: 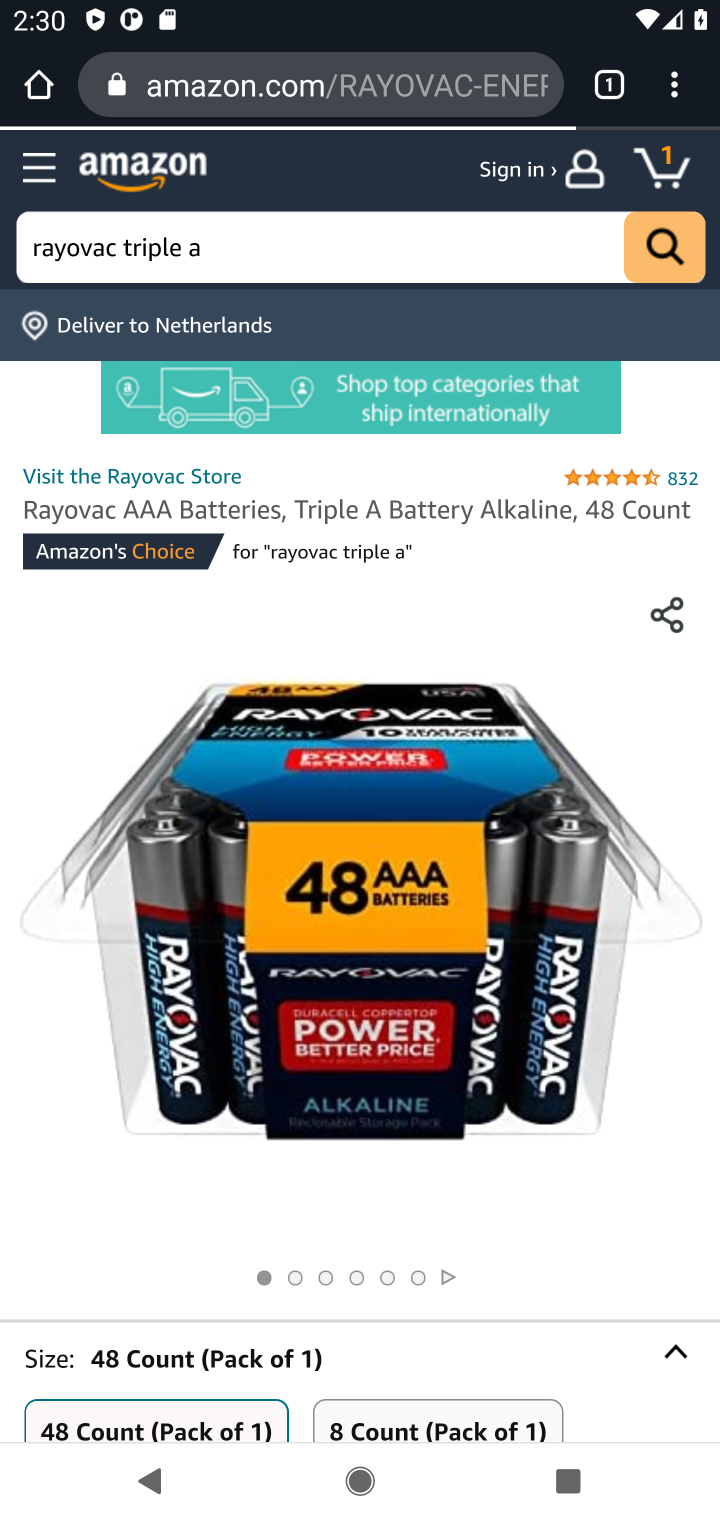
Step 32: click (499, 650)
Your task to perform on an android device: View the shopping cart on amazon. Search for "rayovac triple a" on amazon, select the first entry, and add it to the cart. Image 33: 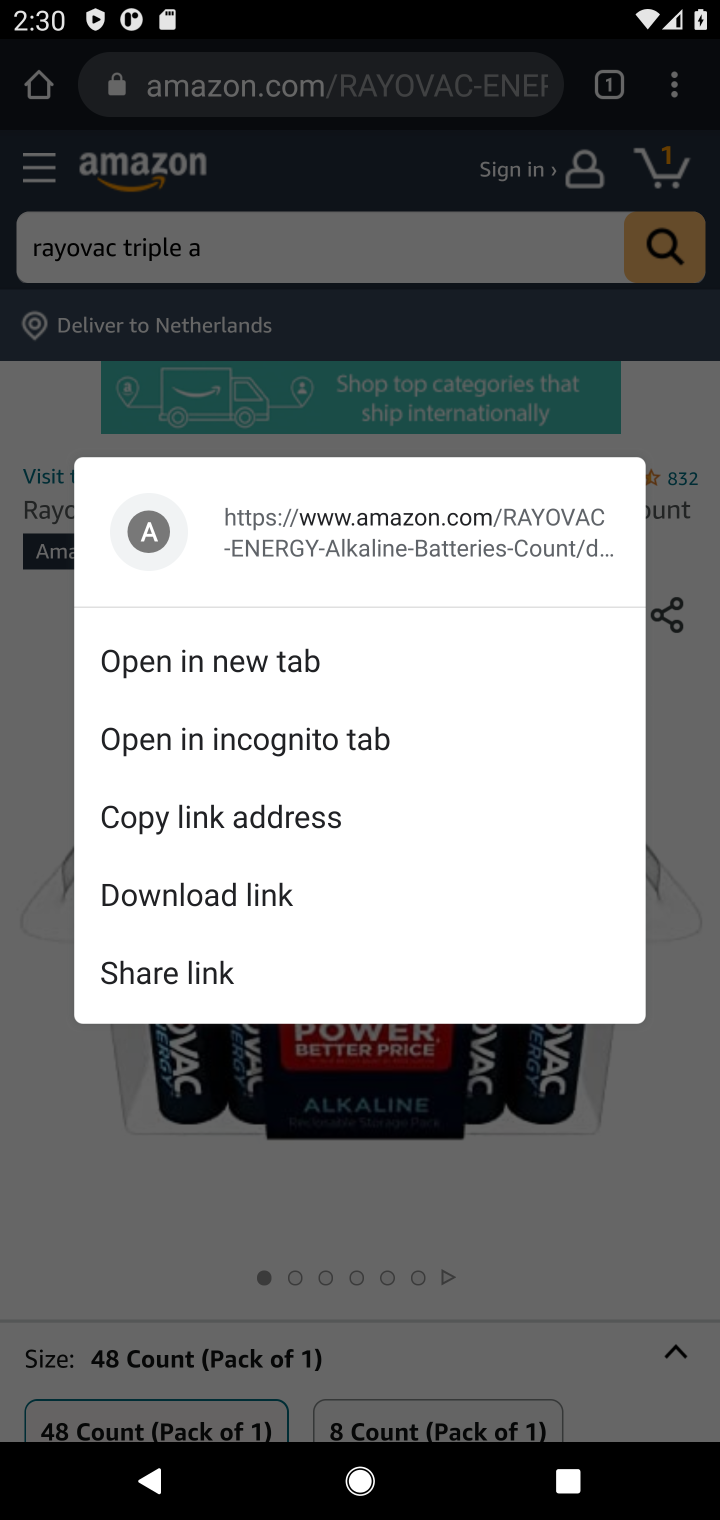
Step 33: click (543, 1143)
Your task to perform on an android device: View the shopping cart on amazon. Search for "rayovac triple a" on amazon, select the first entry, and add it to the cart. Image 34: 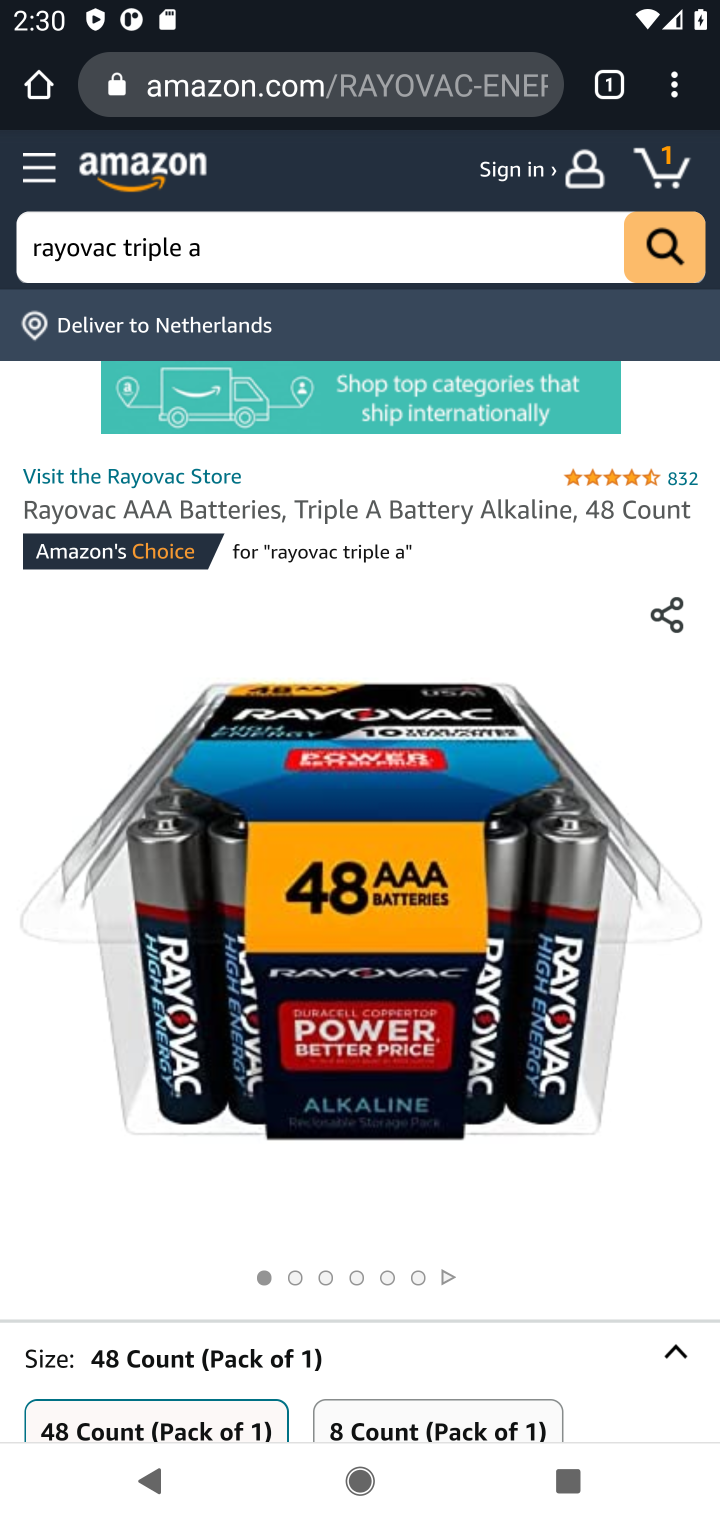
Step 34: drag from (550, 885) to (546, 669)
Your task to perform on an android device: View the shopping cart on amazon. Search for "rayovac triple a" on amazon, select the first entry, and add it to the cart. Image 35: 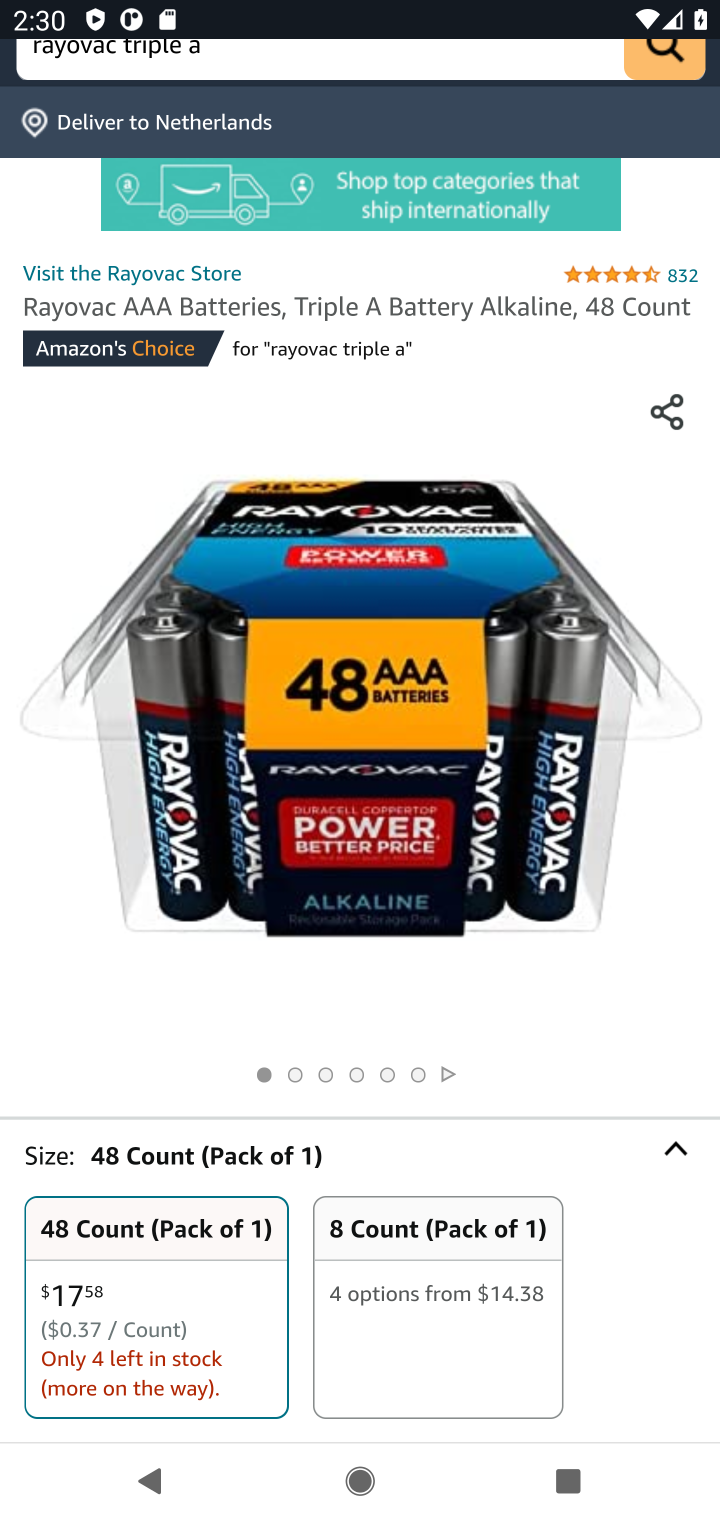
Step 35: drag from (588, 963) to (558, 583)
Your task to perform on an android device: View the shopping cart on amazon. Search for "rayovac triple a" on amazon, select the first entry, and add it to the cart. Image 36: 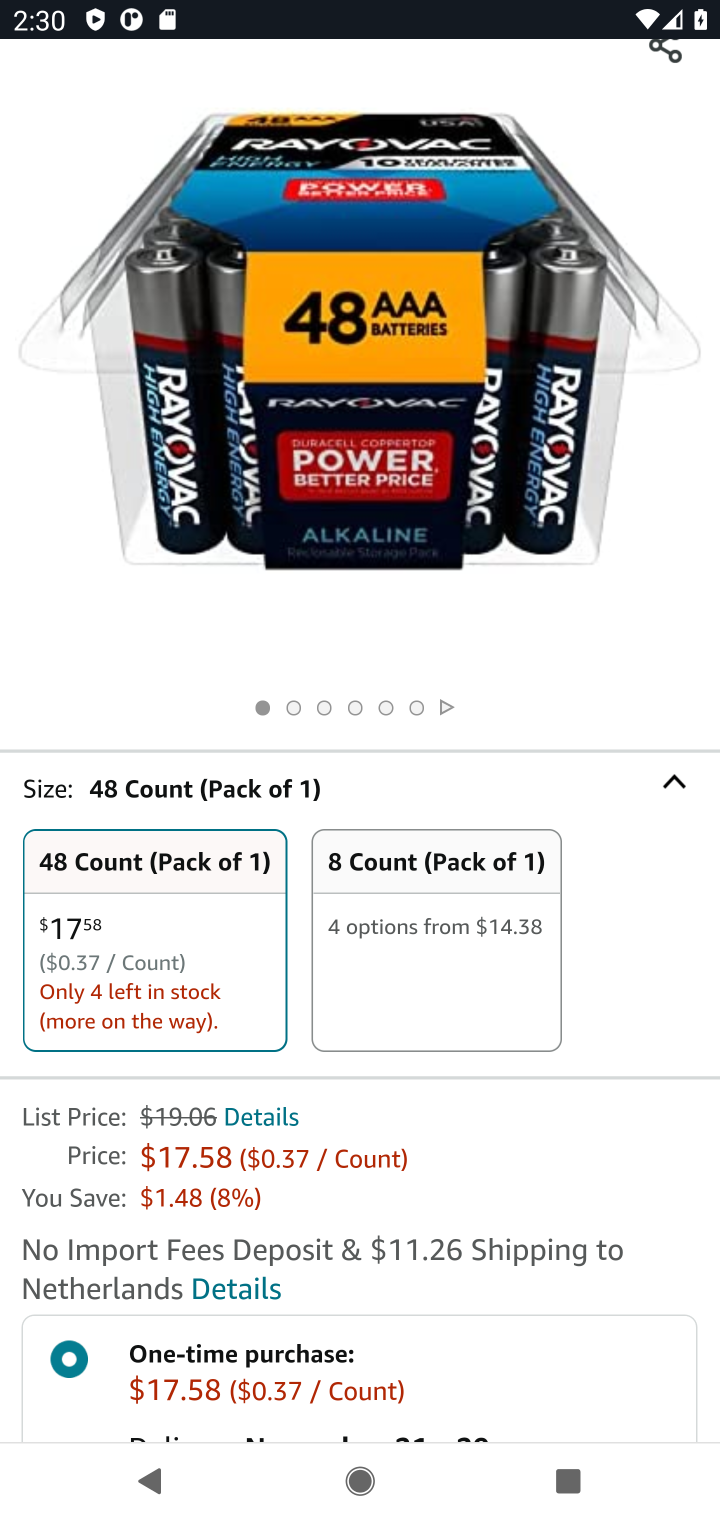
Step 36: click (523, 889)
Your task to perform on an android device: View the shopping cart on amazon. Search for "rayovac triple a" on amazon, select the first entry, and add it to the cart. Image 37: 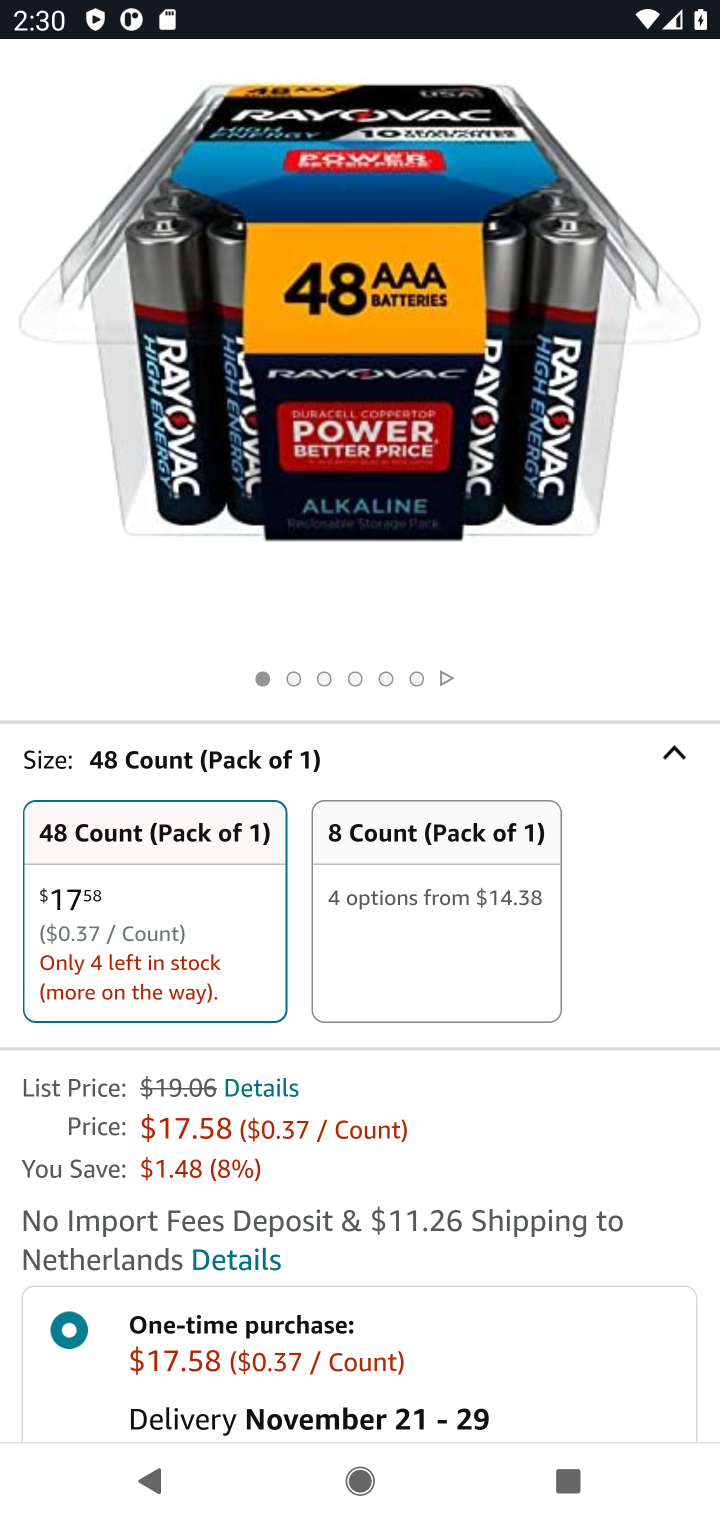
Step 37: drag from (573, 1327) to (570, 726)
Your task to perform on an android device: View the shopping cart on amazon. Search for "rayovac triple a" on amazon, select the first entry, and add it to the cart. Image 38: 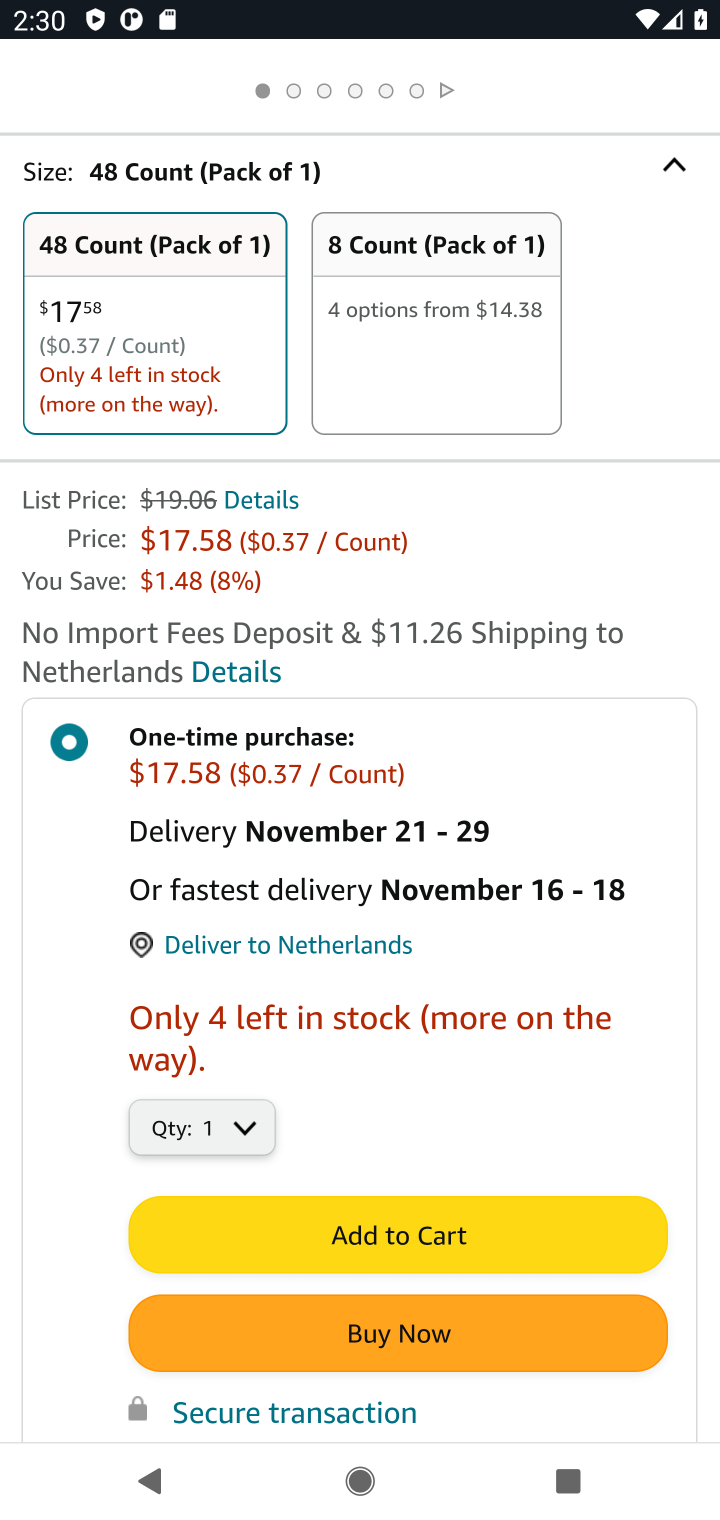
Step 38: click (537, 1229)
Your task to perform on an android device: View the shopping cart on amazon. Search for "rayovac triple a" on amazon, select the first entry, and add it to the cart. Image 39: 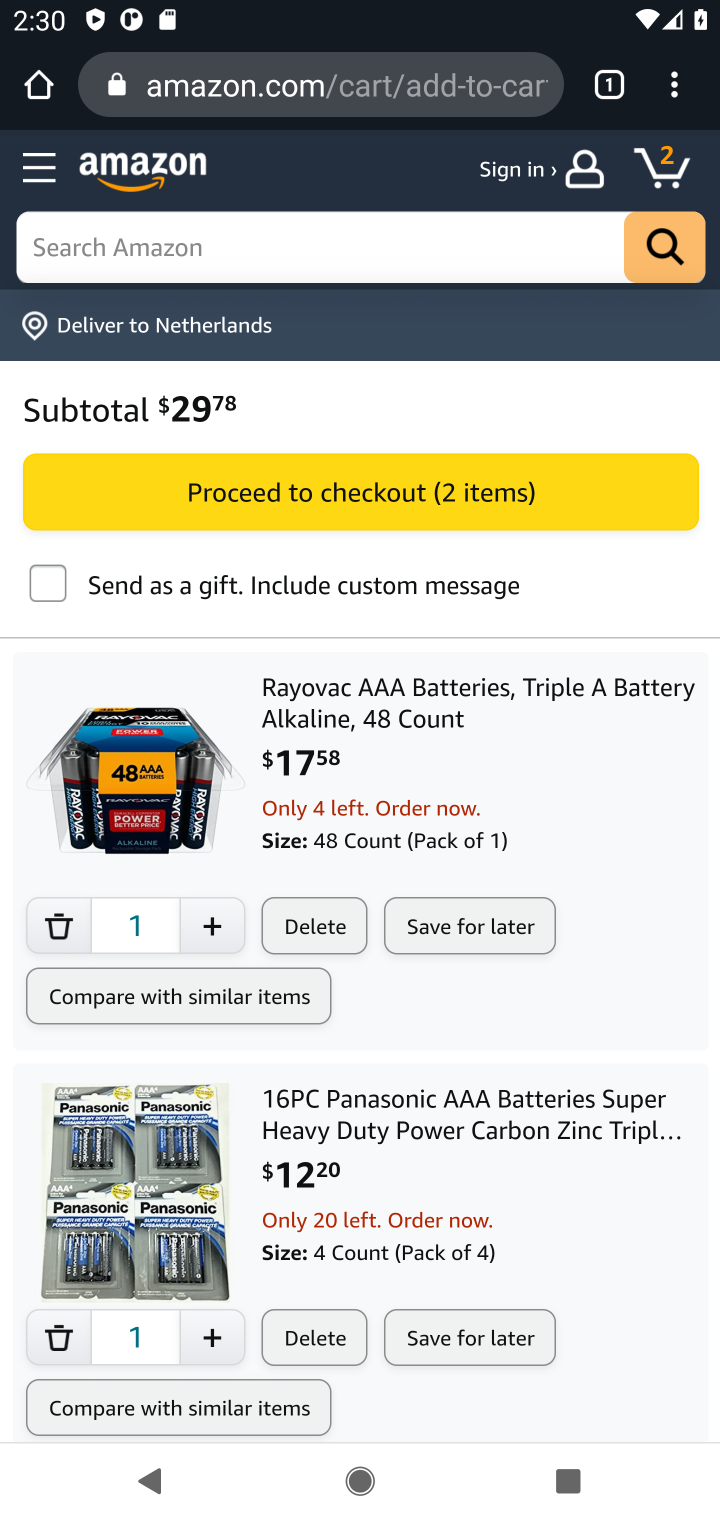
Step 39: task complete